Your task to perform on an android device: open app "Venmo" Image 0: 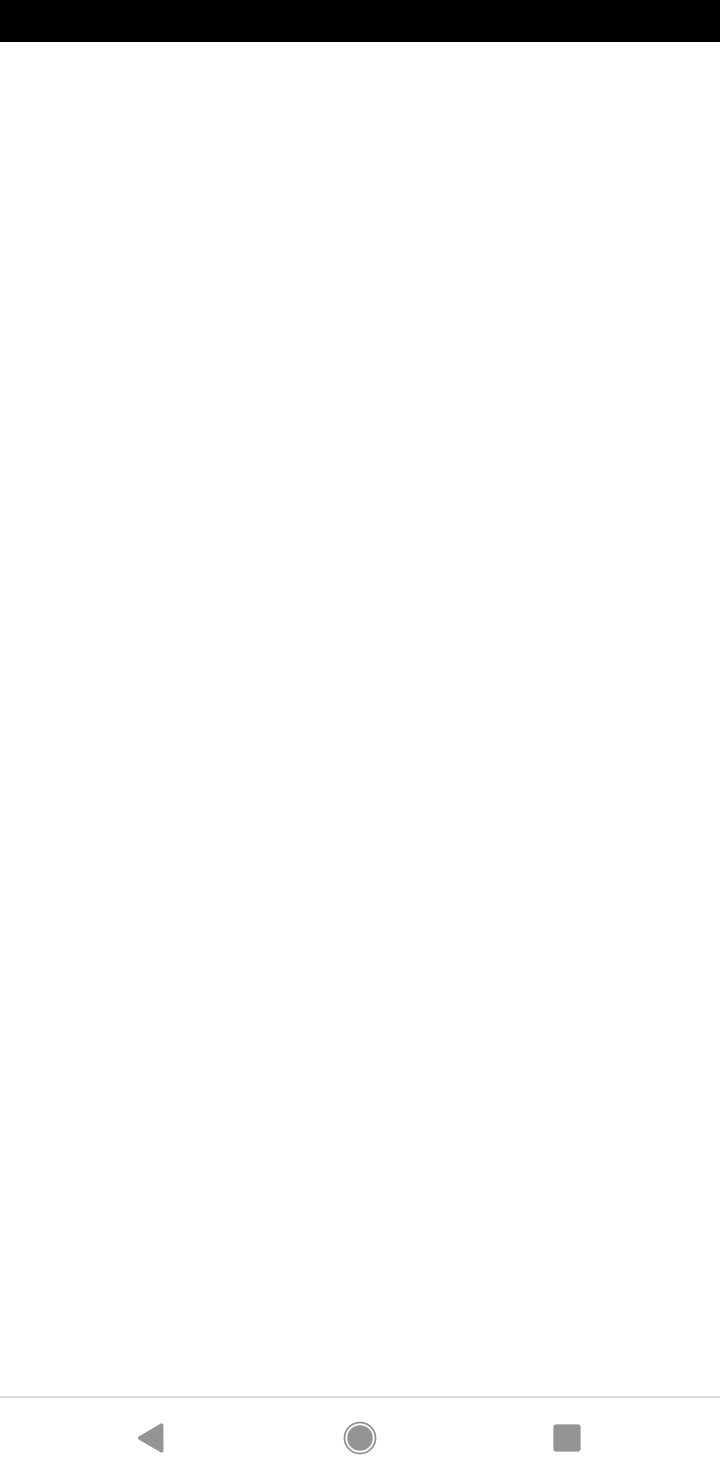
Step 0: press back button
Your task to perform on an android device: open app "Venmo" Image 1: 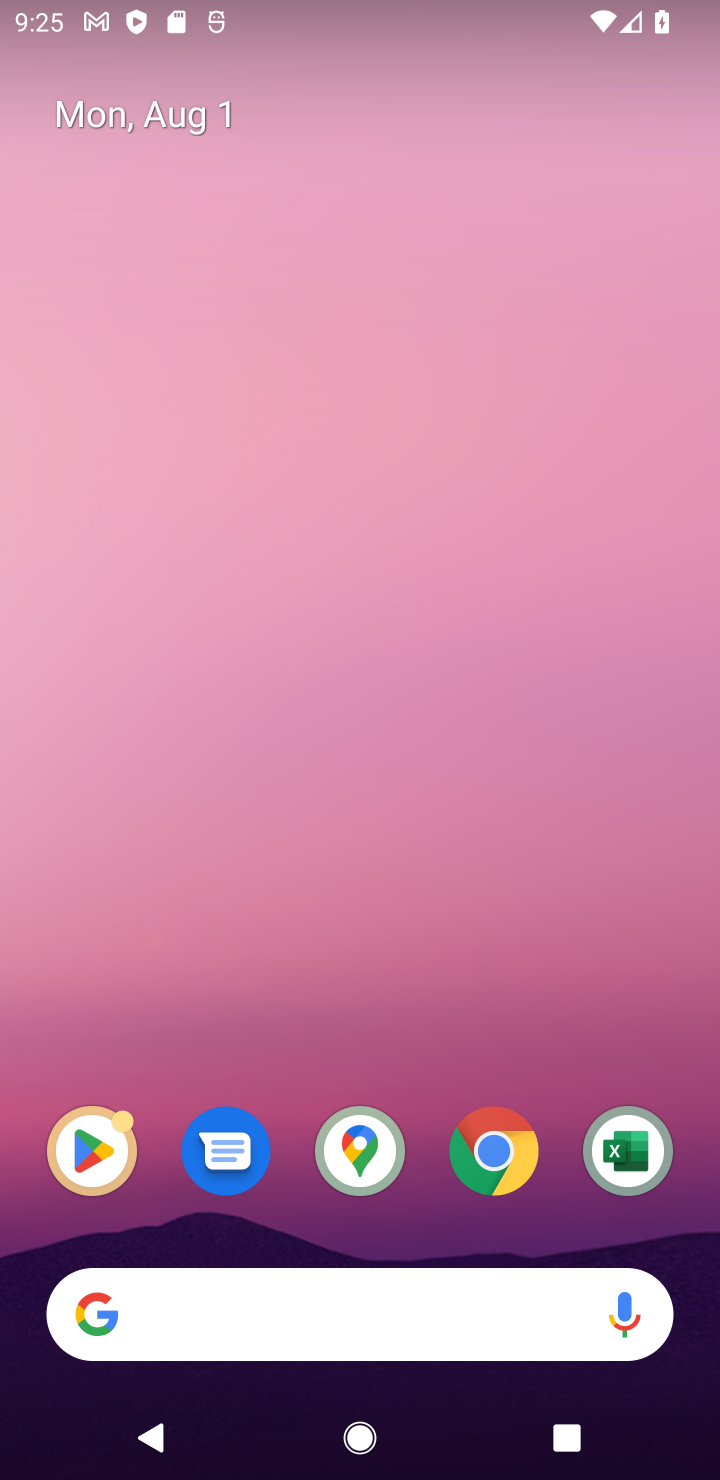
Step 1: drag from (532, 1239) to (408, 282)
Your task to perform on an android device: open app "Venmo" Image 2: 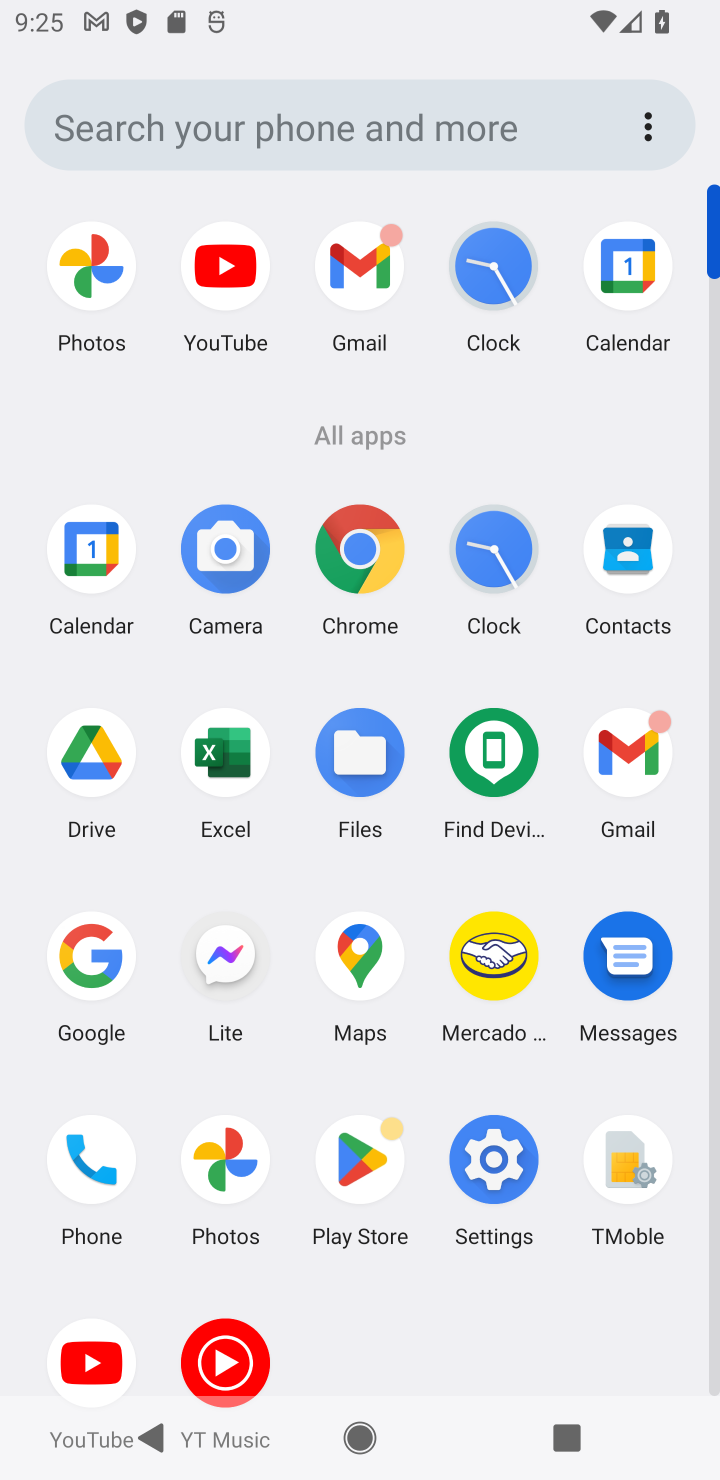
Step 2: click (362, 1157)
Your task to perform on an android device: open app "Venmo" Image 3: 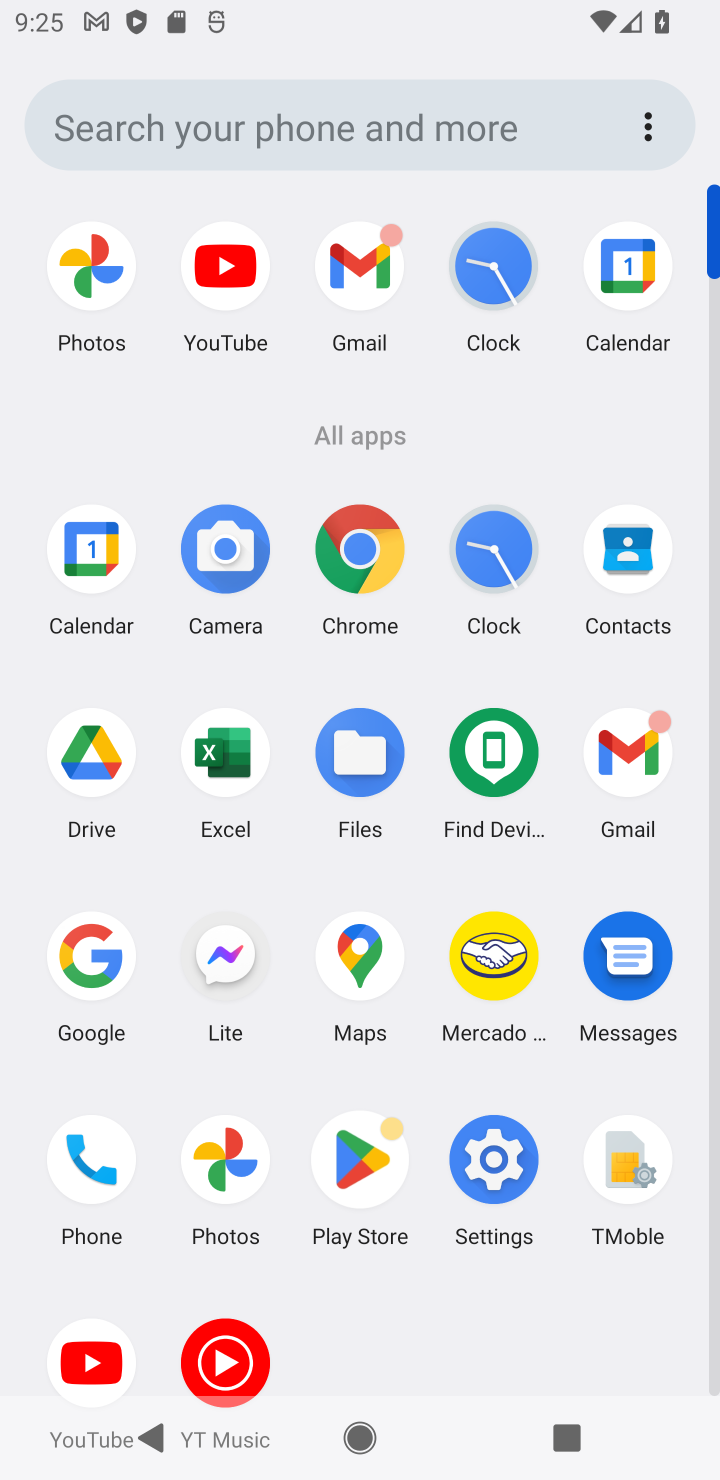
Step 3: click (373, 1141)
Your task to perform on an android device: open app "Venmo" Image 4: 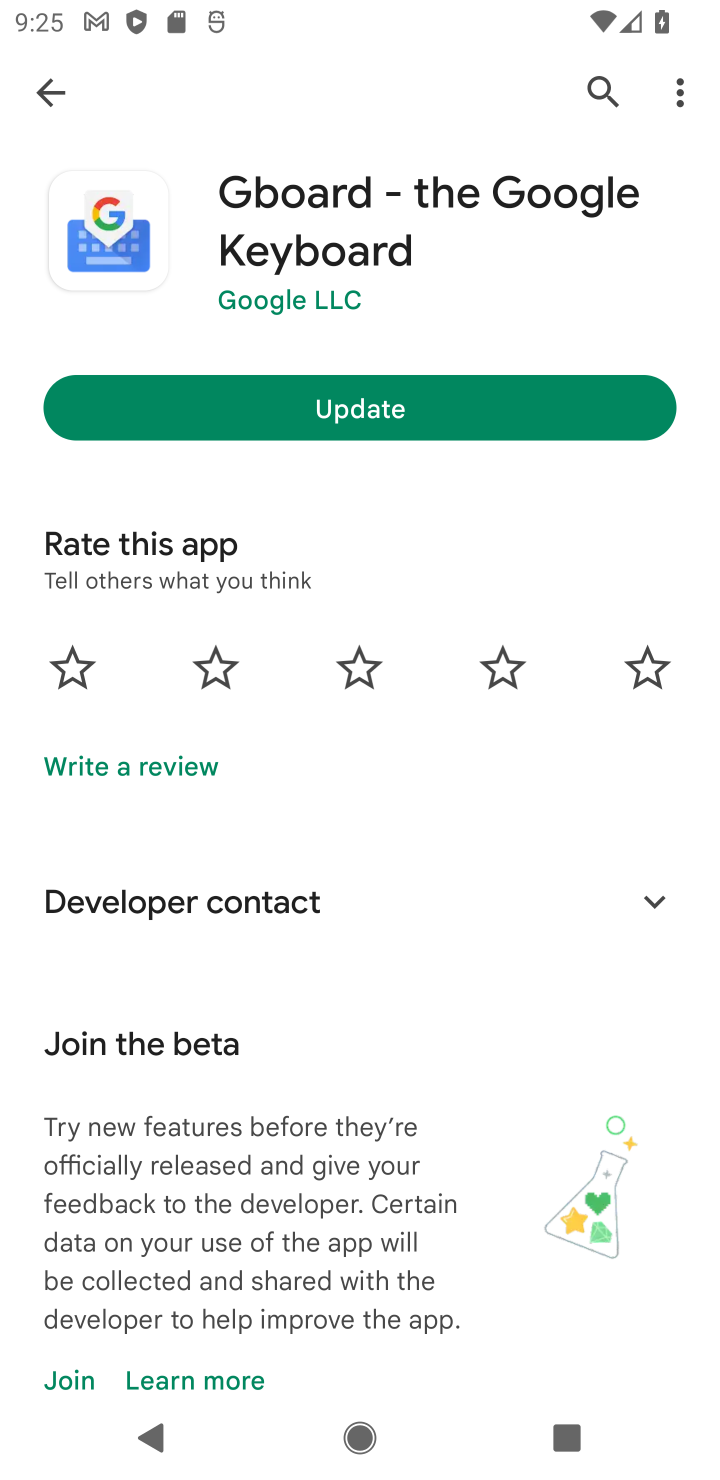
Step 4: click (375, 1141)
Your task to perform on an android device: open app "Venmo" Image 5: 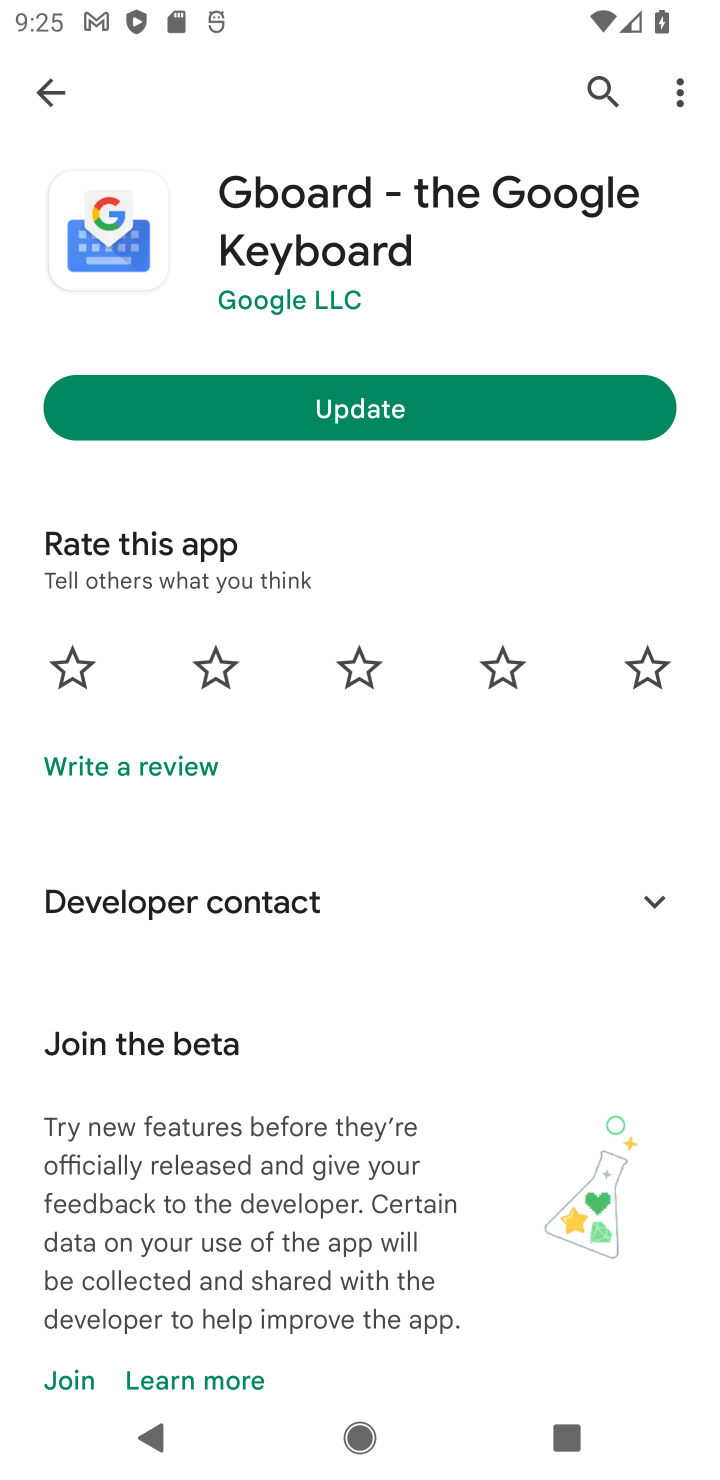
Step 5: click (381, 1136)
Your task to perform on an android device: open app "Venmo" Image 6: 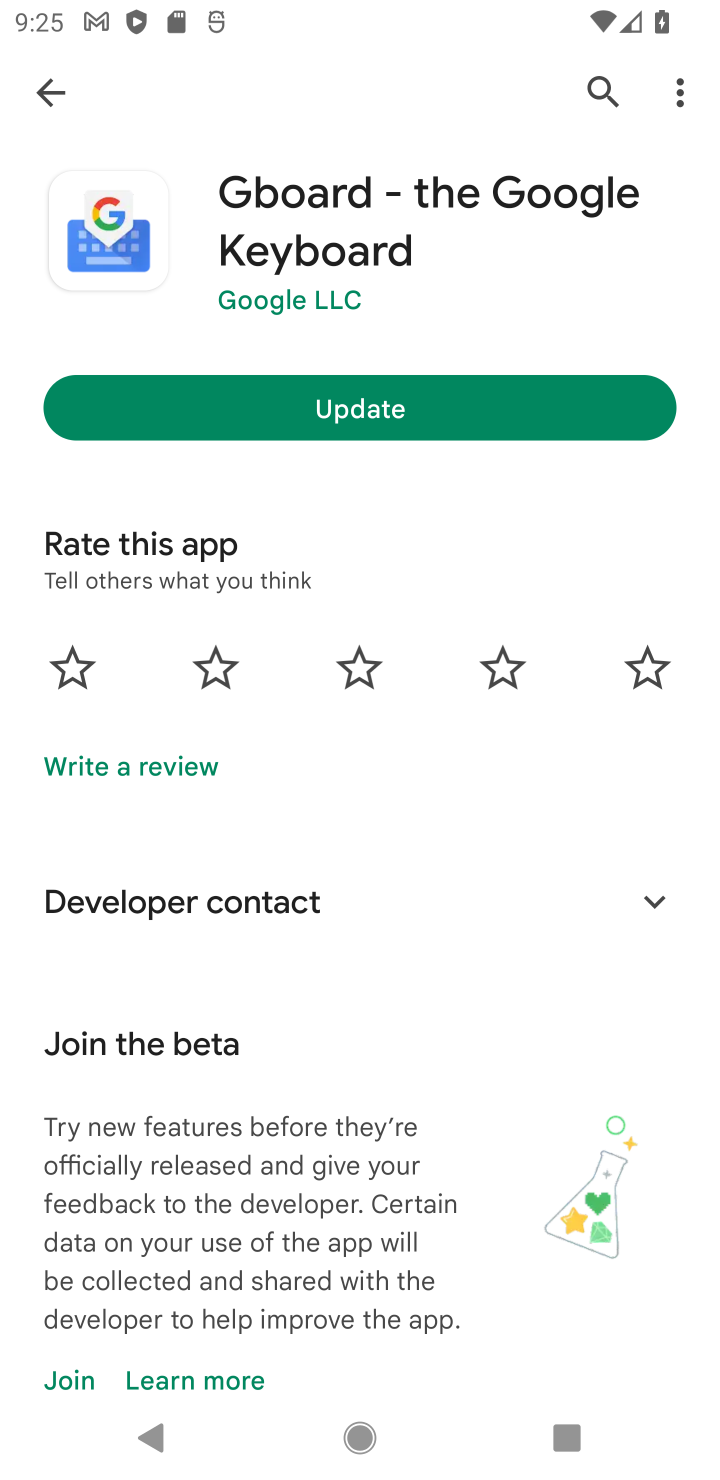
Step 6: click (40, 81)
Your task to perform on an android device: open app "Venmo" Image 7: 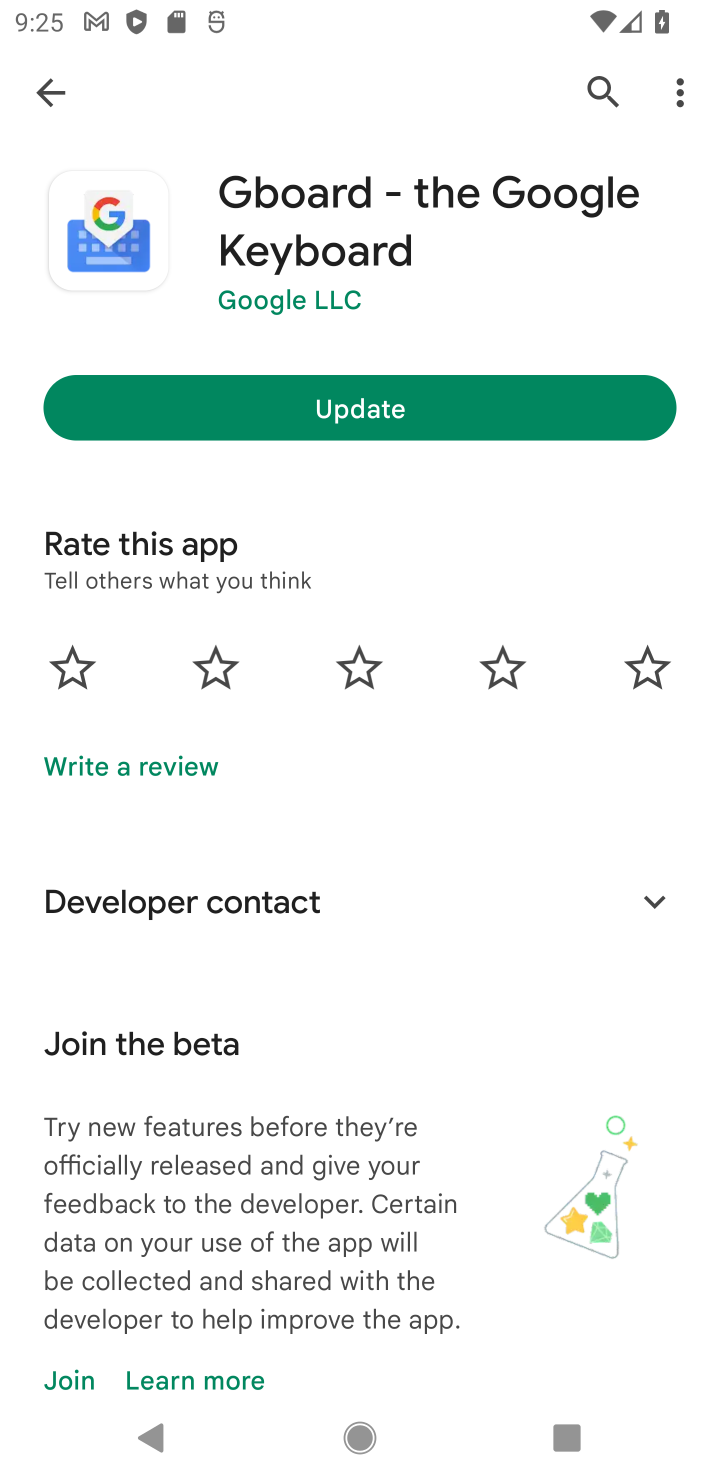
Step 7: click (50, 82)
Your task to perform on an android device: open app "Venmo" Image 8: 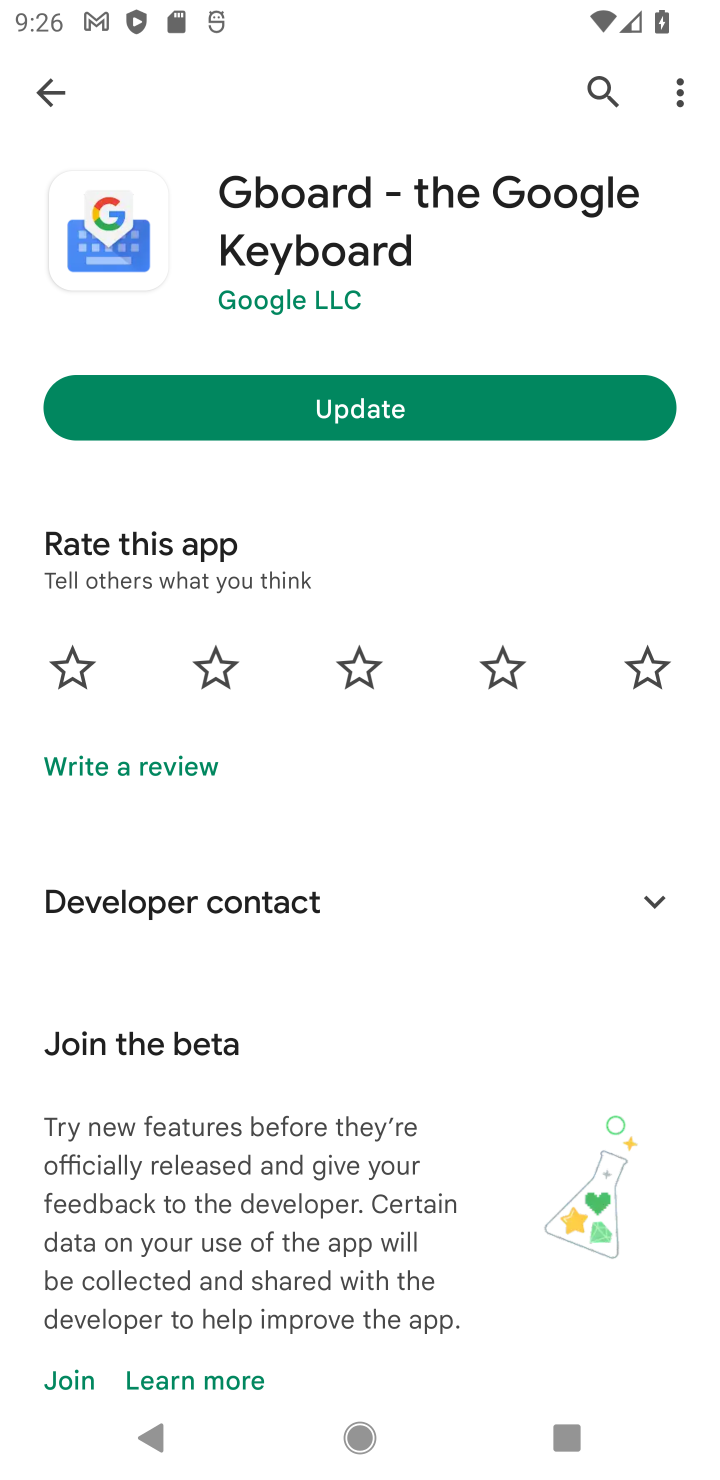
Step 8: click (86, 50)
Your task to perform on an android device: open app "Venmo" Image 9: 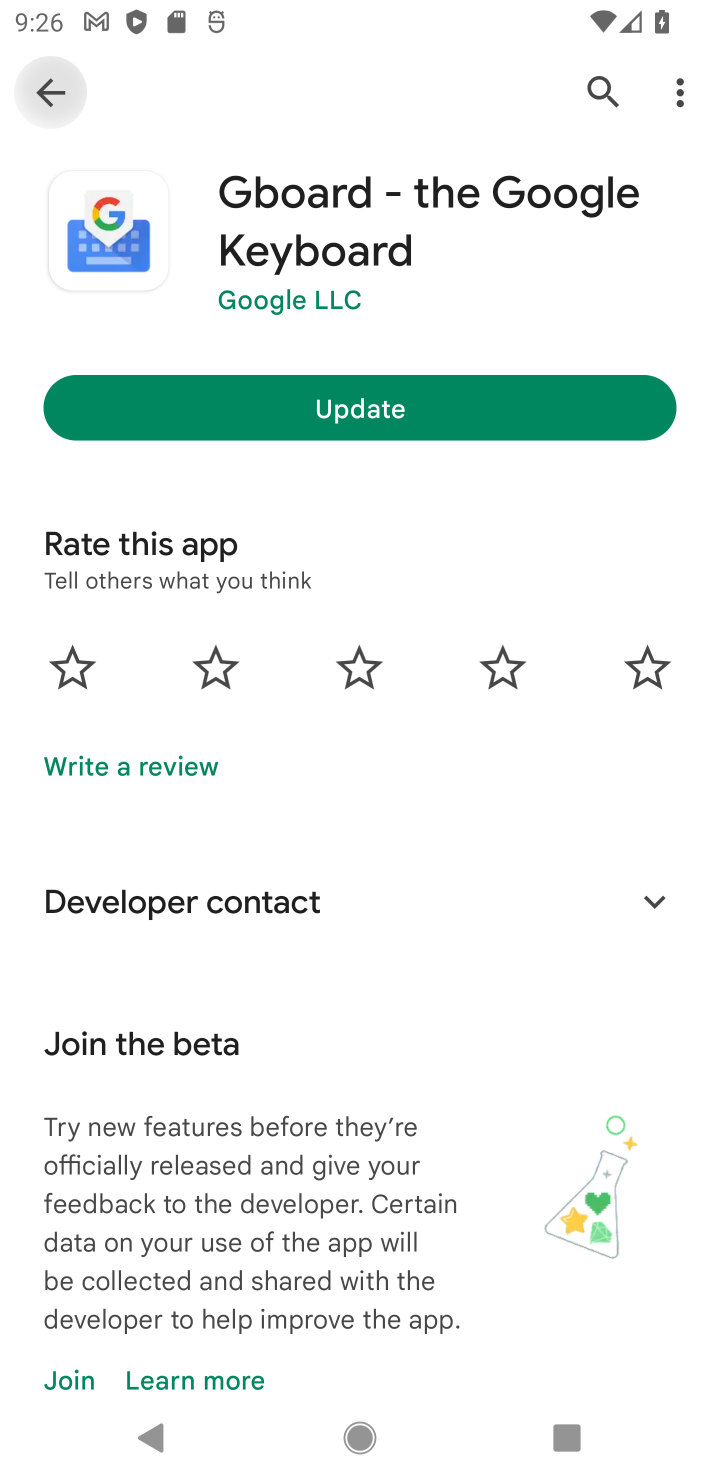
Step 9: click (56, 77)
Your task to perform on an android device: open app "Venmo" Image 10: 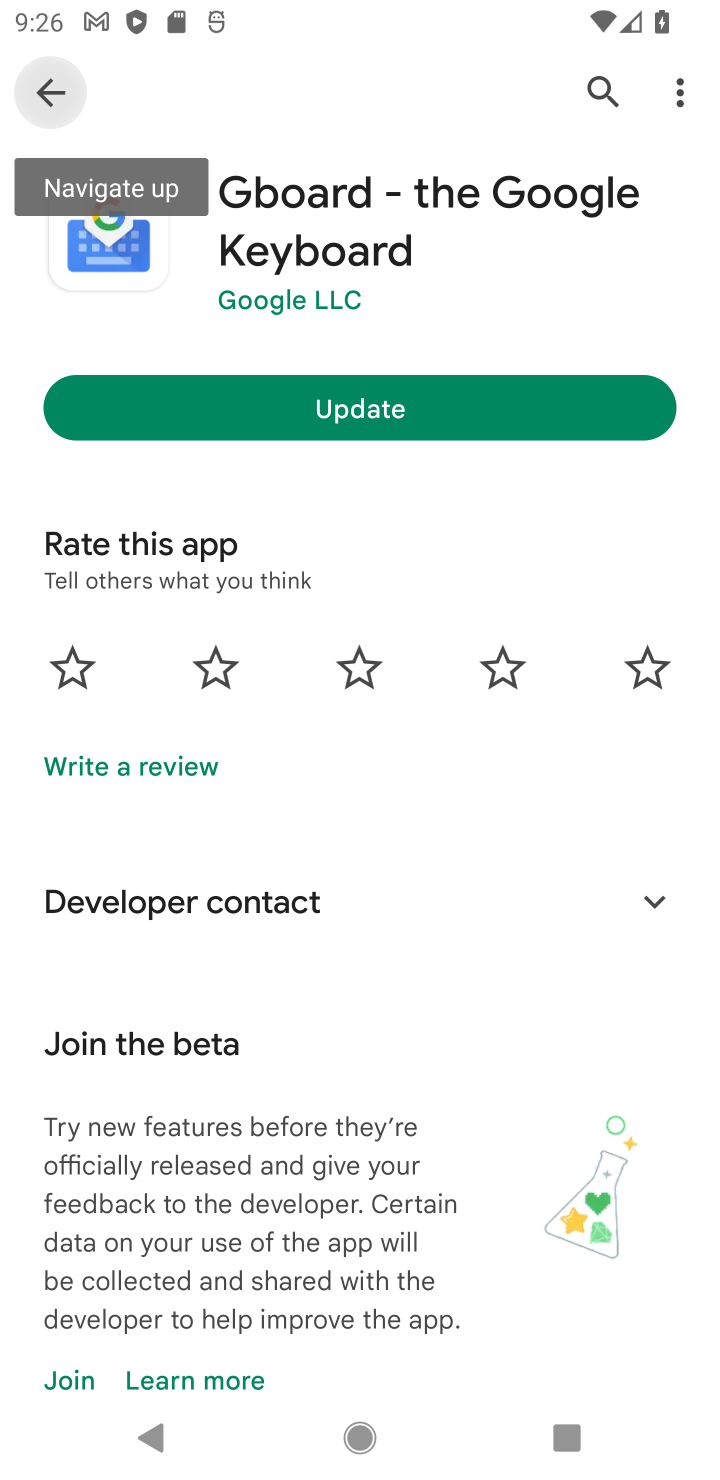
Step 10: click (79, 110)
Your task to perform on an android device: open app "Venmo" Image 11: 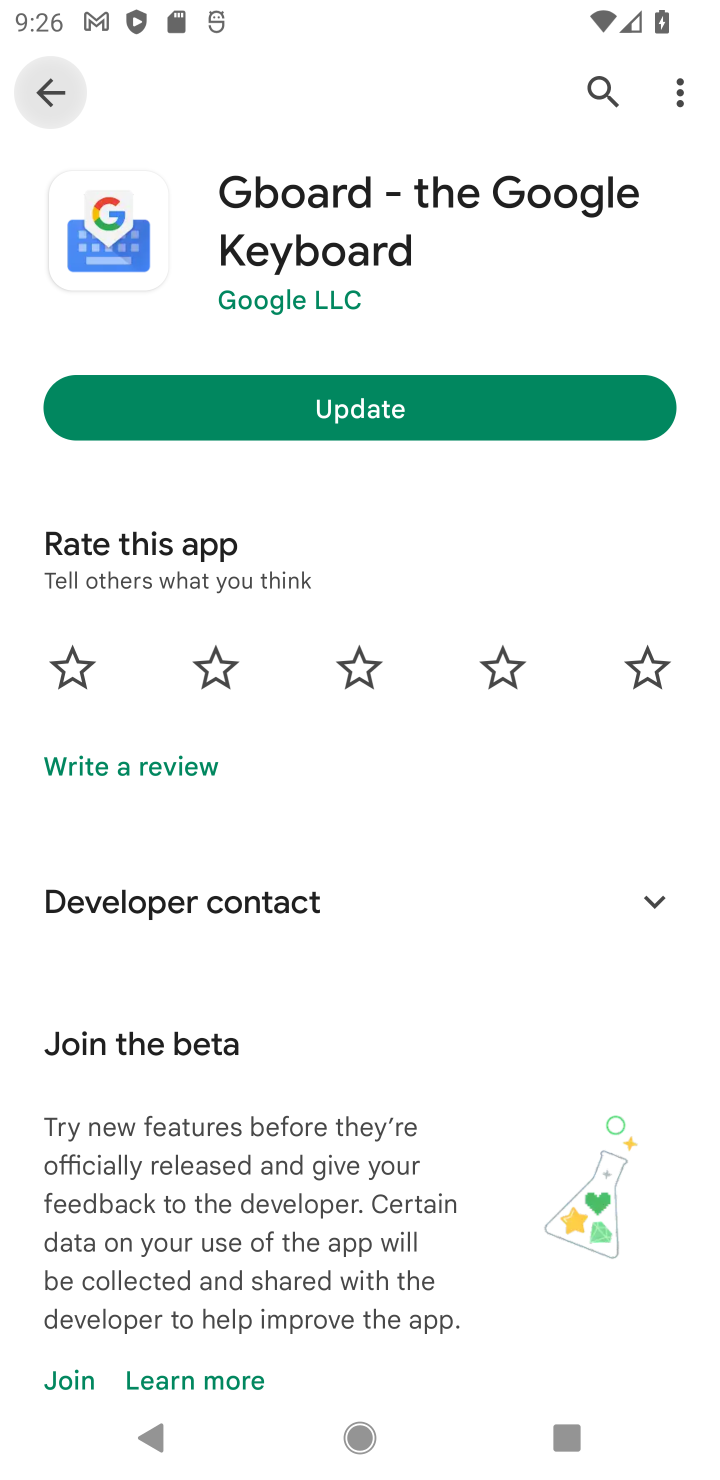
Step 11: click (79, 121)
Your task to perform on an android device: open app "Venmo" Image 12: 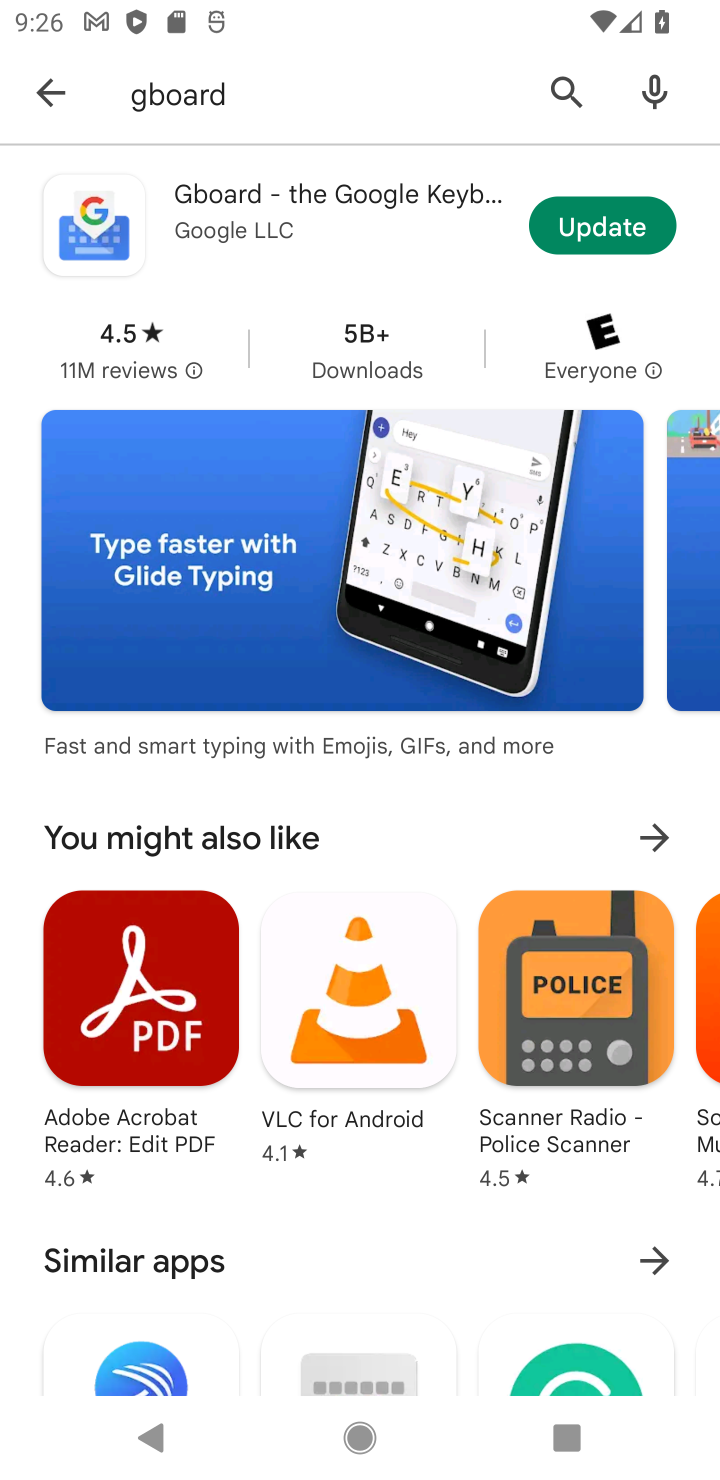
Step 12: press back button
Your task to perform on an android device: open app "Venmo" Image 13: 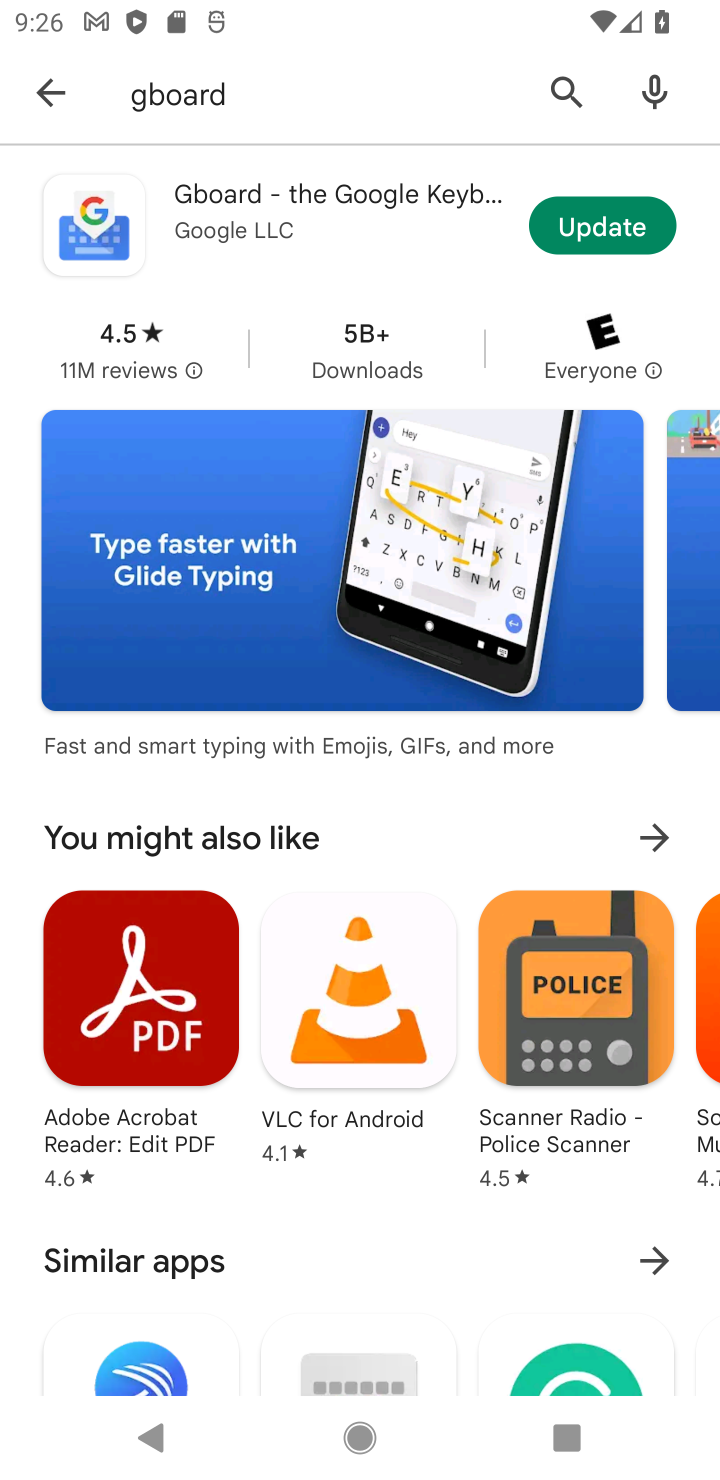
Step 13: press back button
Your task to perform on an android device: open app "Venmo" Image 14: 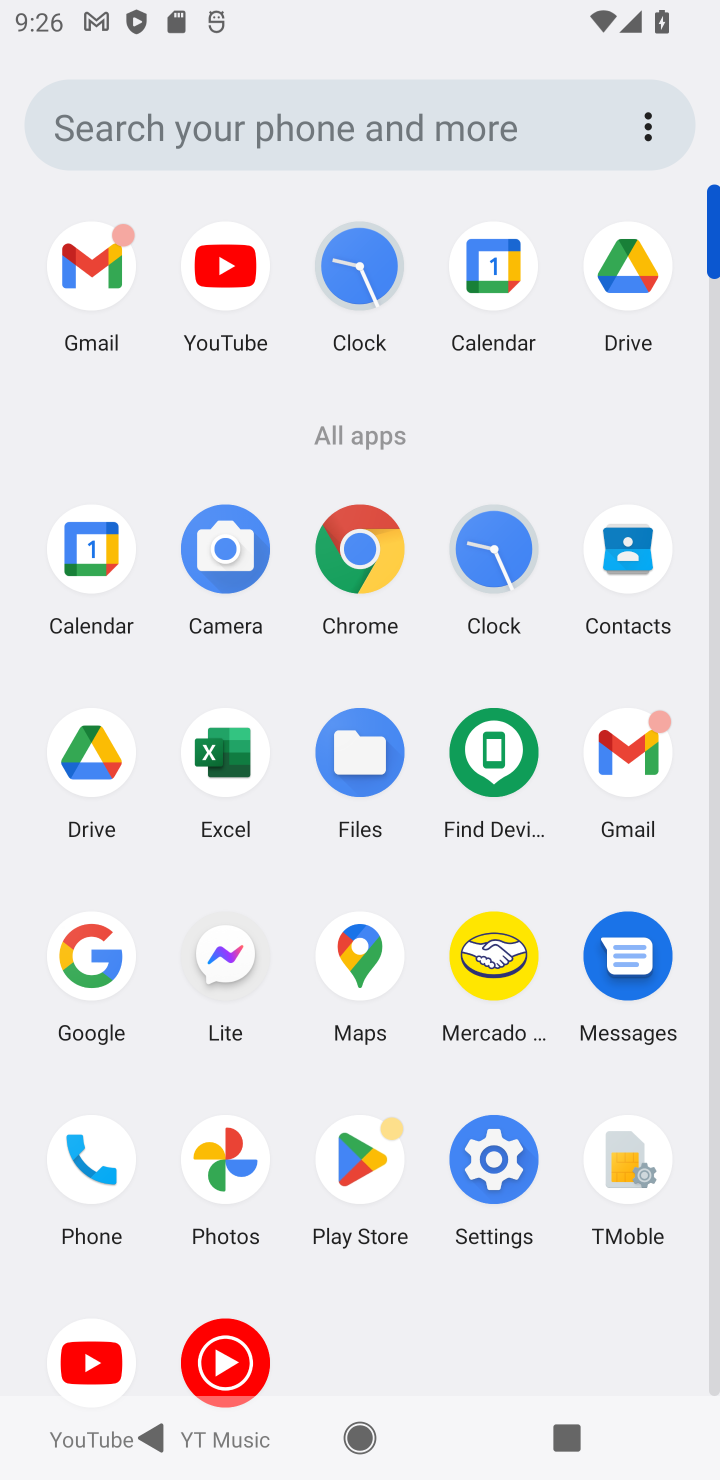
Step 14: click (366, 1123)
Your task to perform on an android device: open app "Venmo" Image 15: 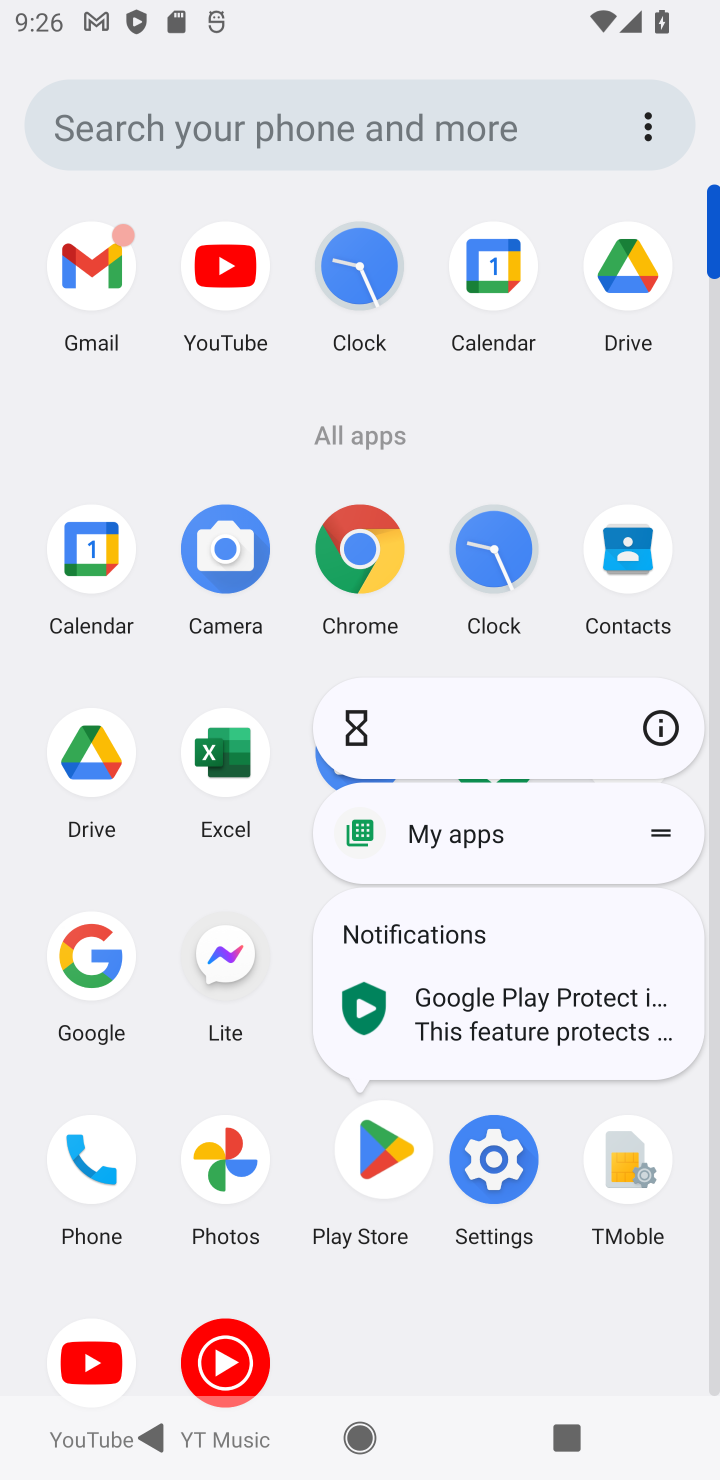
Step 15: click (392, 1113)
Your task to perform on an android device: open app "Venmo" Image 16: 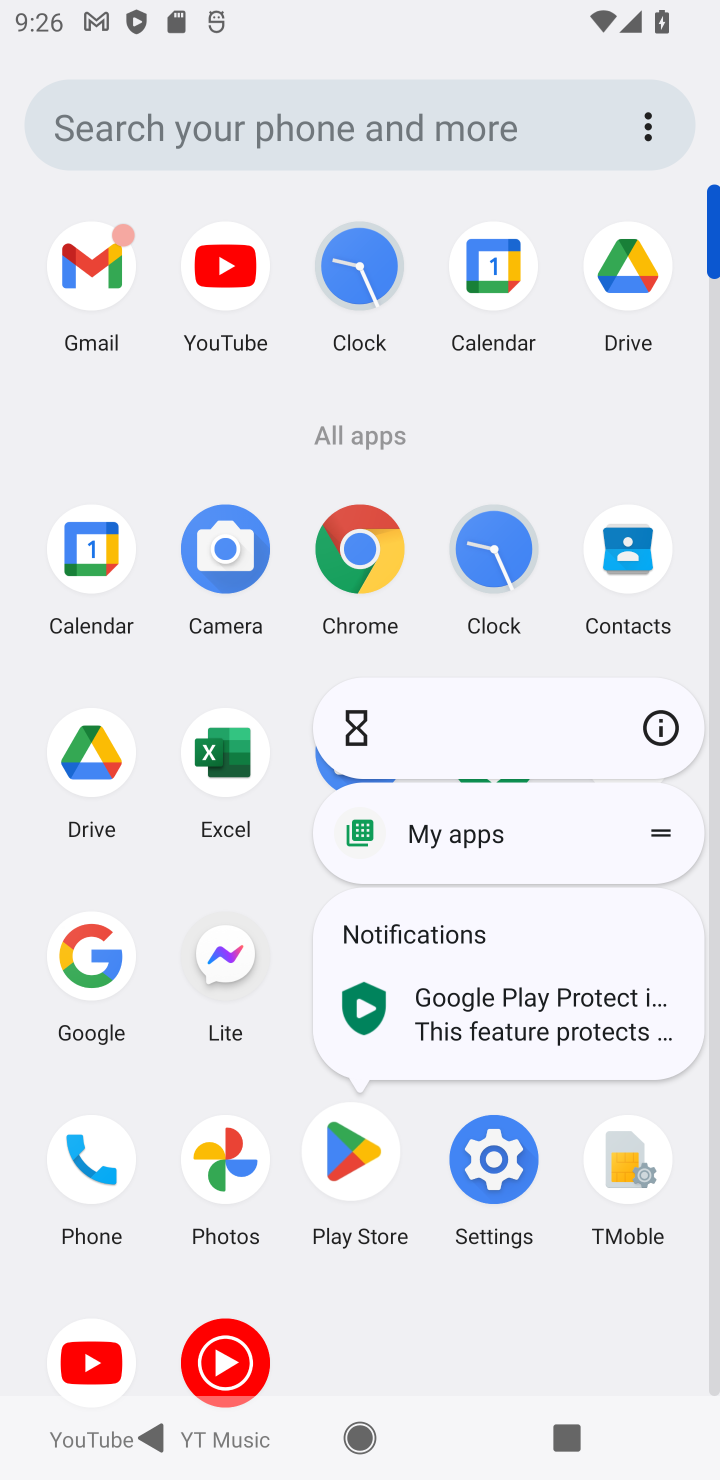
Step 16: click (301, 1152)
Your task to perform on an android device: open app "Venmo" Image 17: 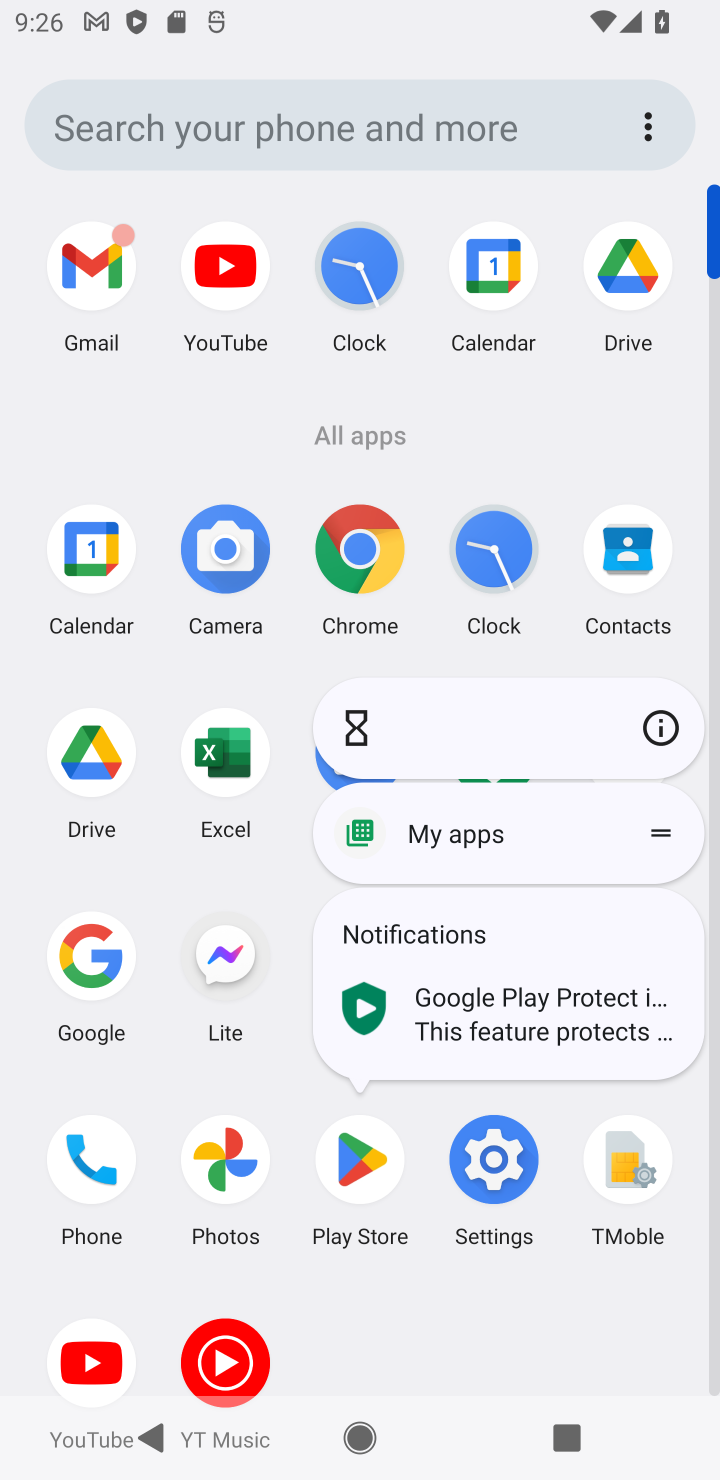
Step 17: click (342, 1150)
Your task to perform on an android device: open app "Venmo" Image 18: 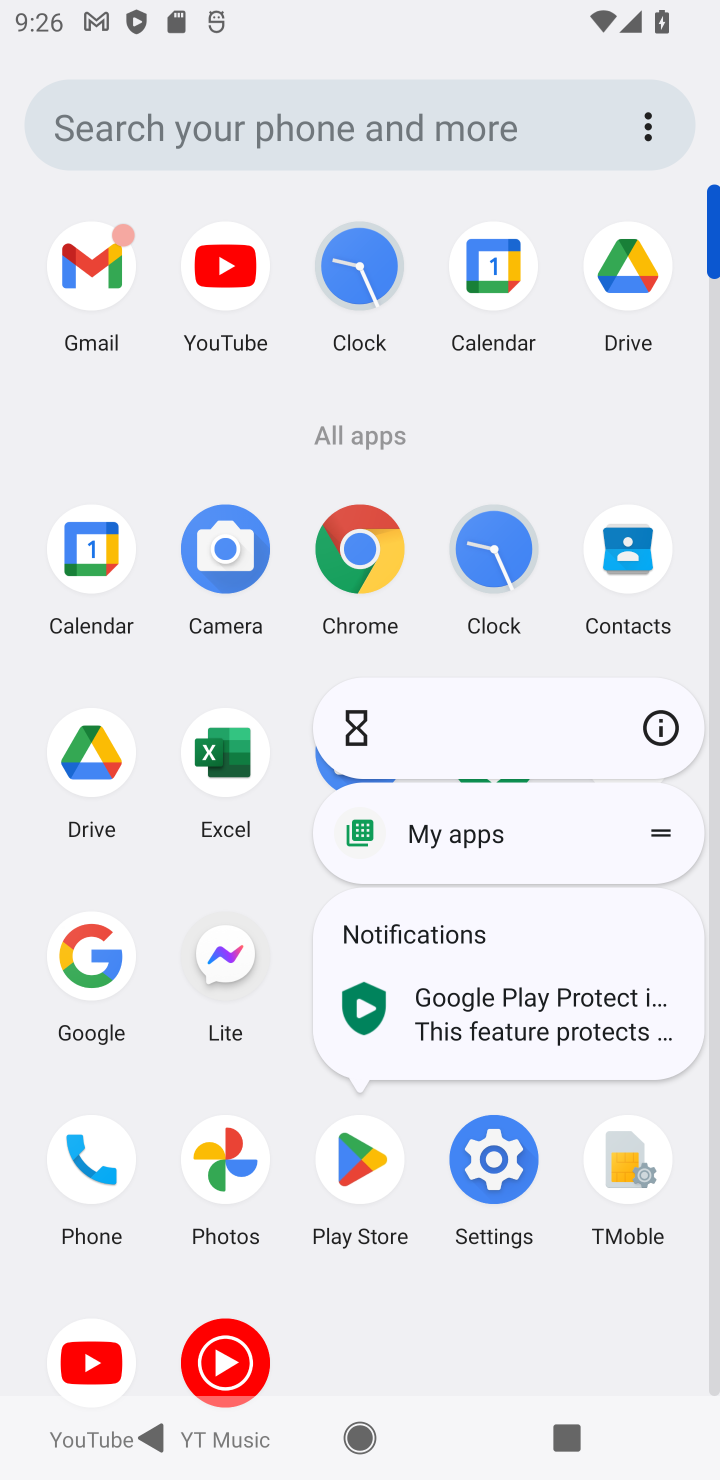
Step 18: click (375, 1164)
Your task to perform on an android device: open app "Venmo" Image 19: 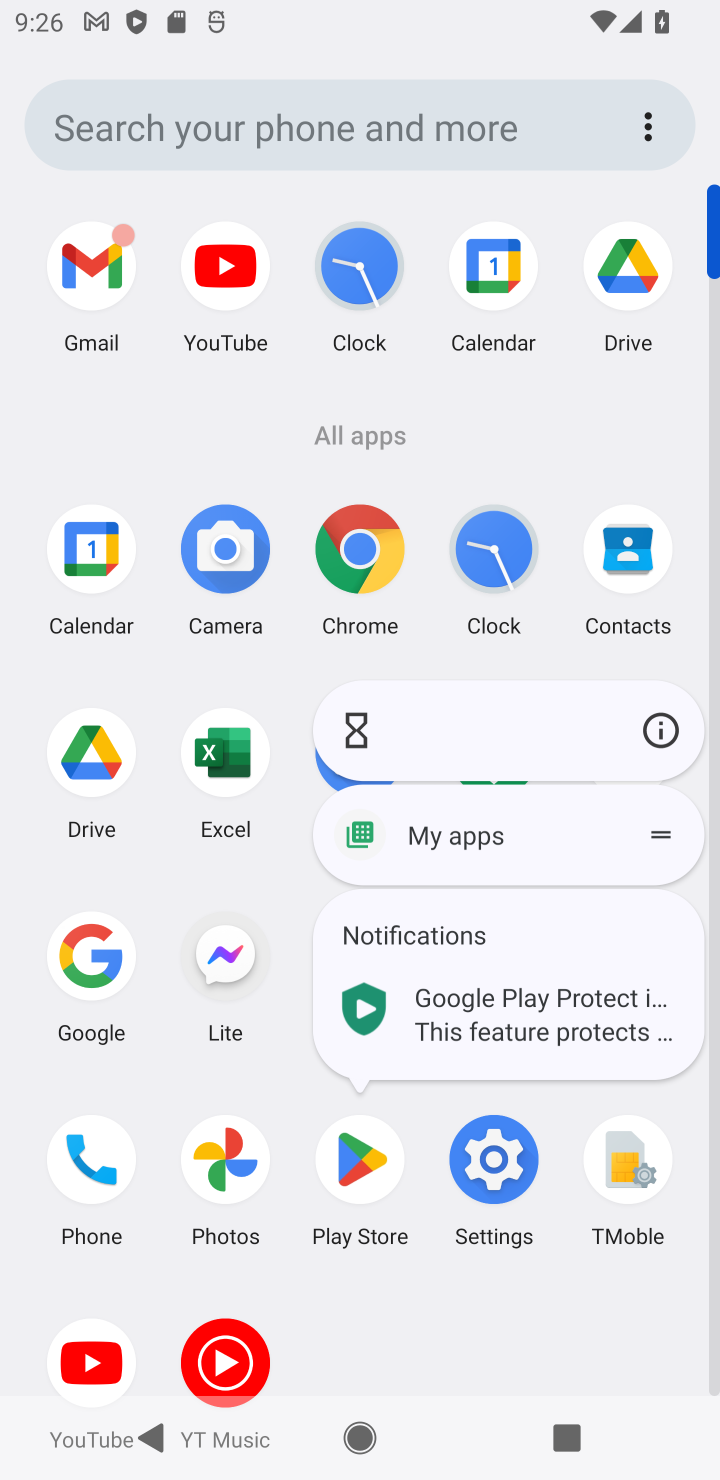
Step 19: click (362, 1177)
Your task to perform on an android device: open app "Venmo" Image 20: 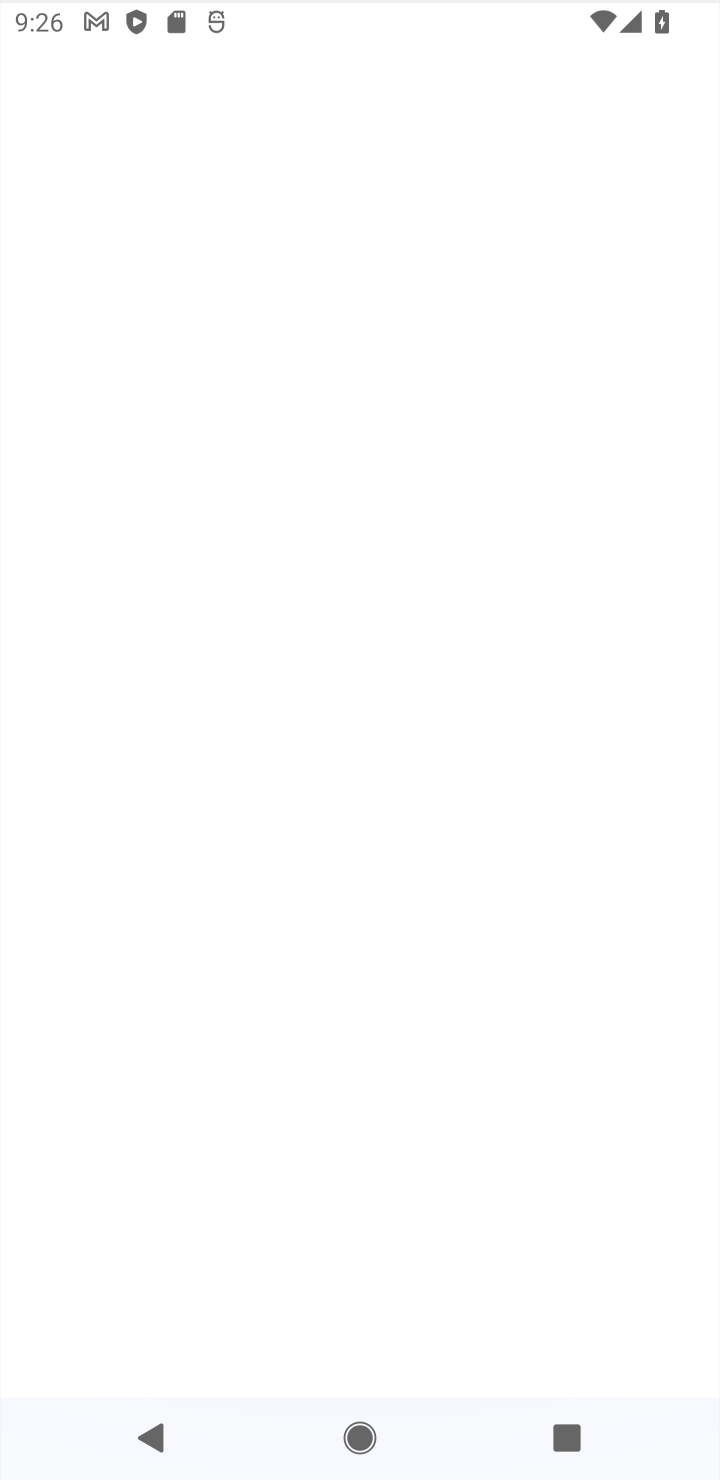
Step 20: click (362, 1128)
Your task to perform on an android device: open app "Venmo" Image 21: 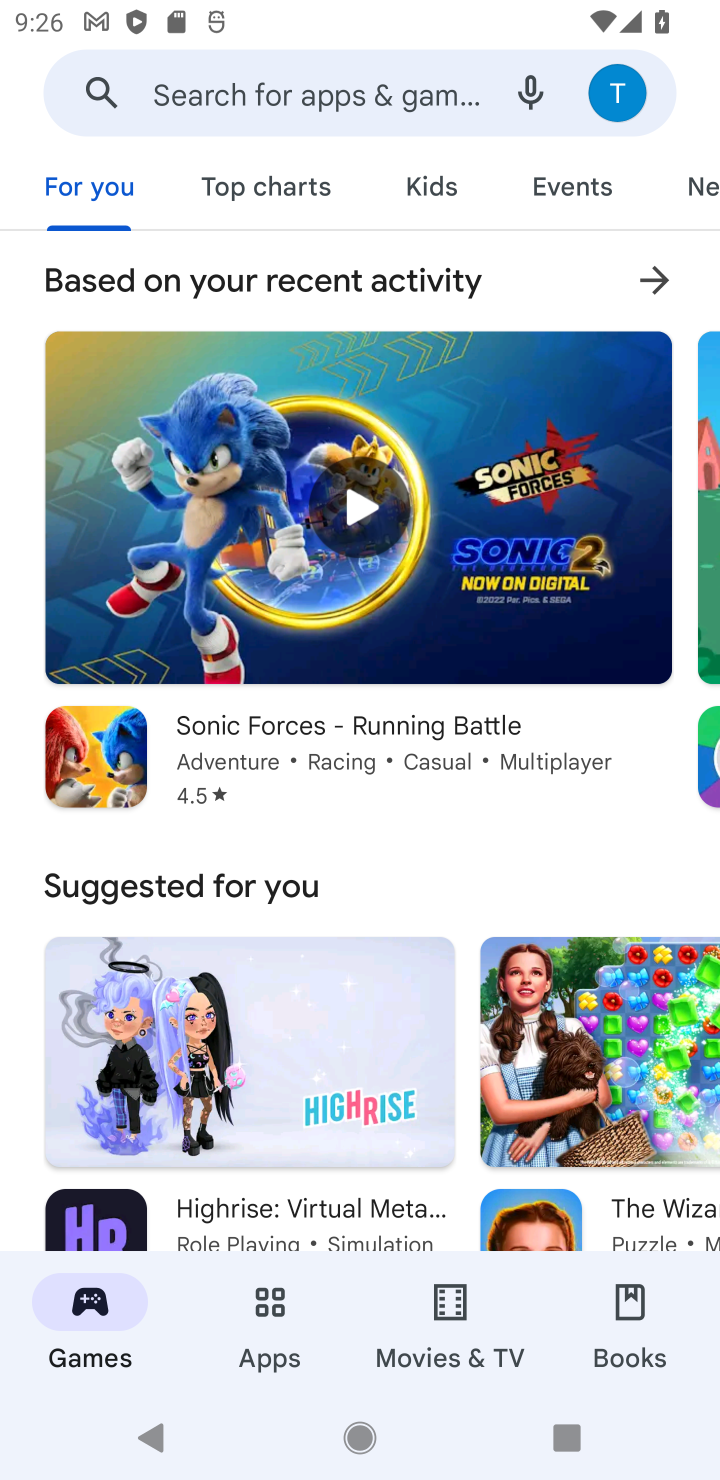
Step 21: click (195, 60)
Your task to perform on an android device: open app "Venmo" Image 22: 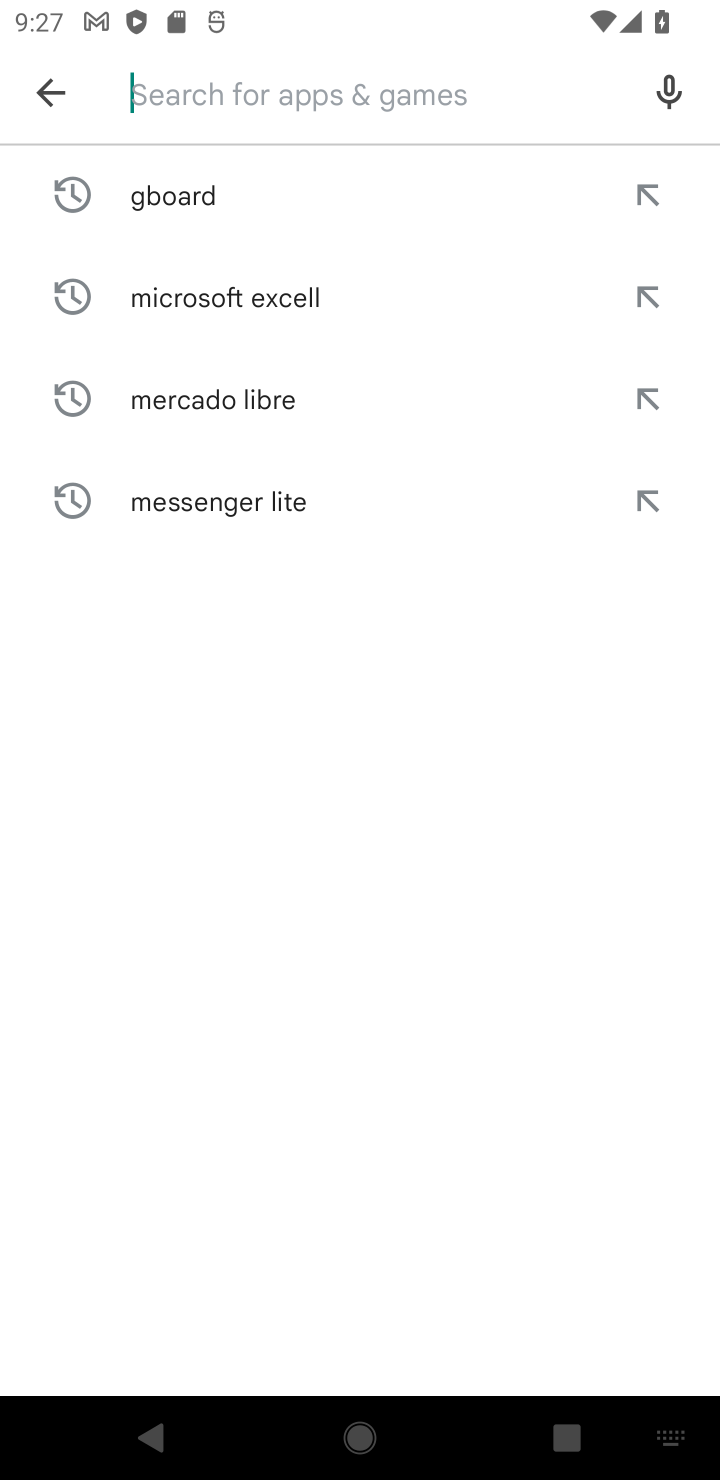
Step 22: type "venmo"
Your task to perform on an android device: open app "Venmo" Image 23: 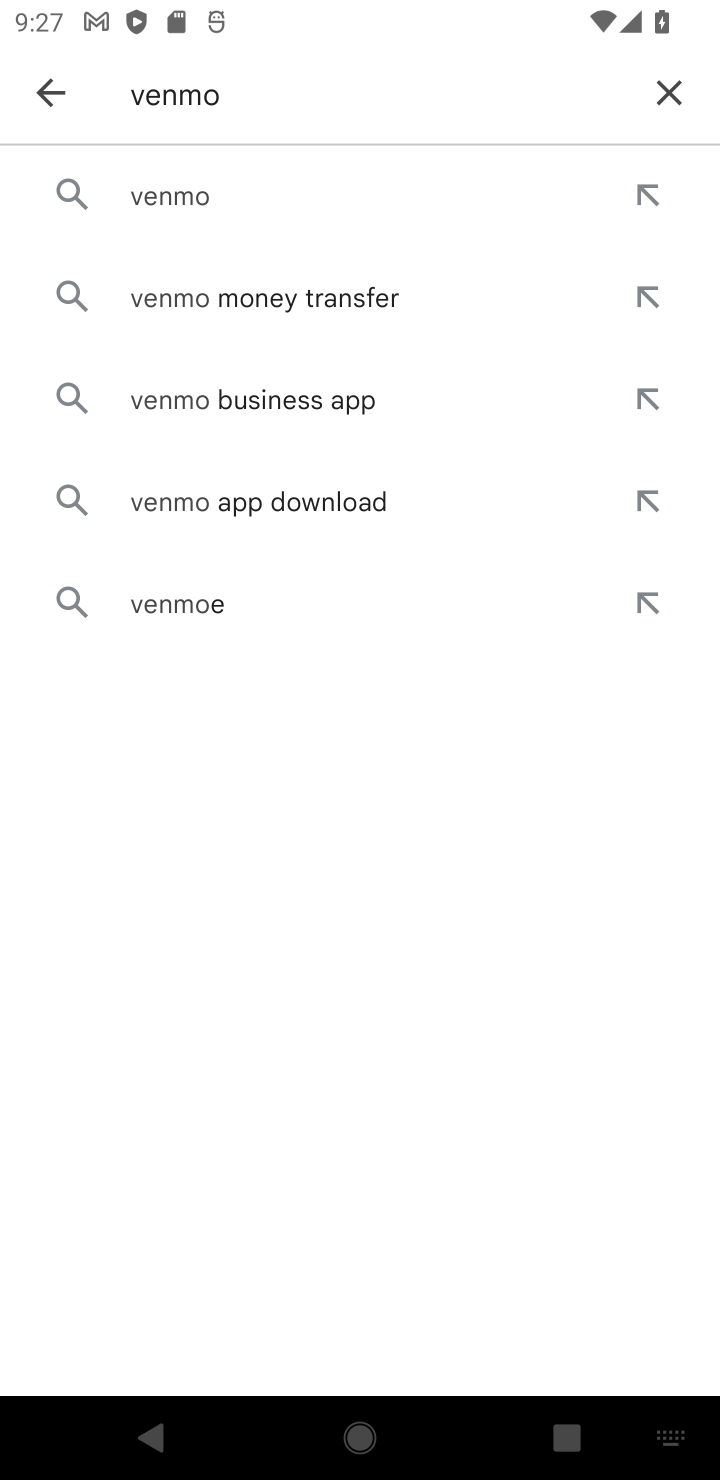
Step 23: click (186, 211)
Your task to perform on an android device: open app "Venmo" Image 24: 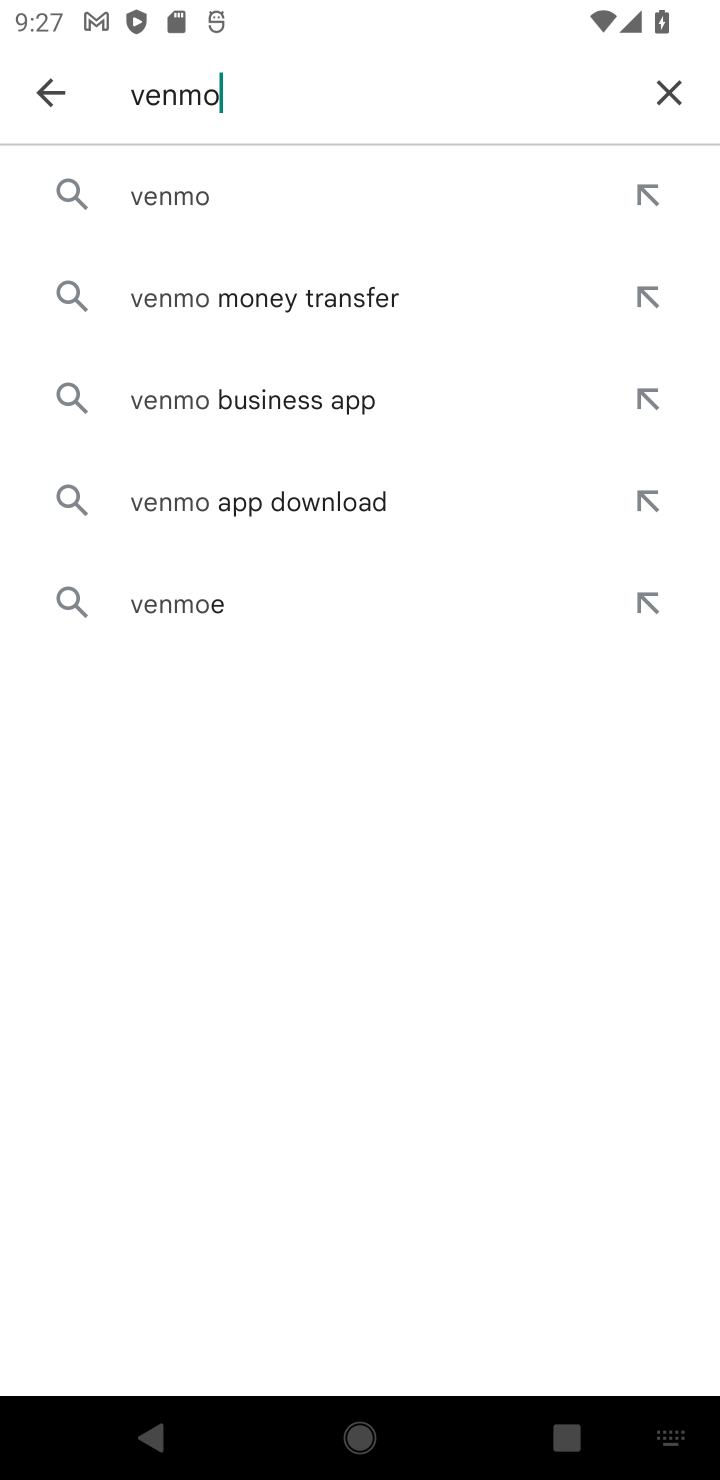
Step 24: click (186, 206)
Your task to perform on an android device: open app "Venmo" Image 25: 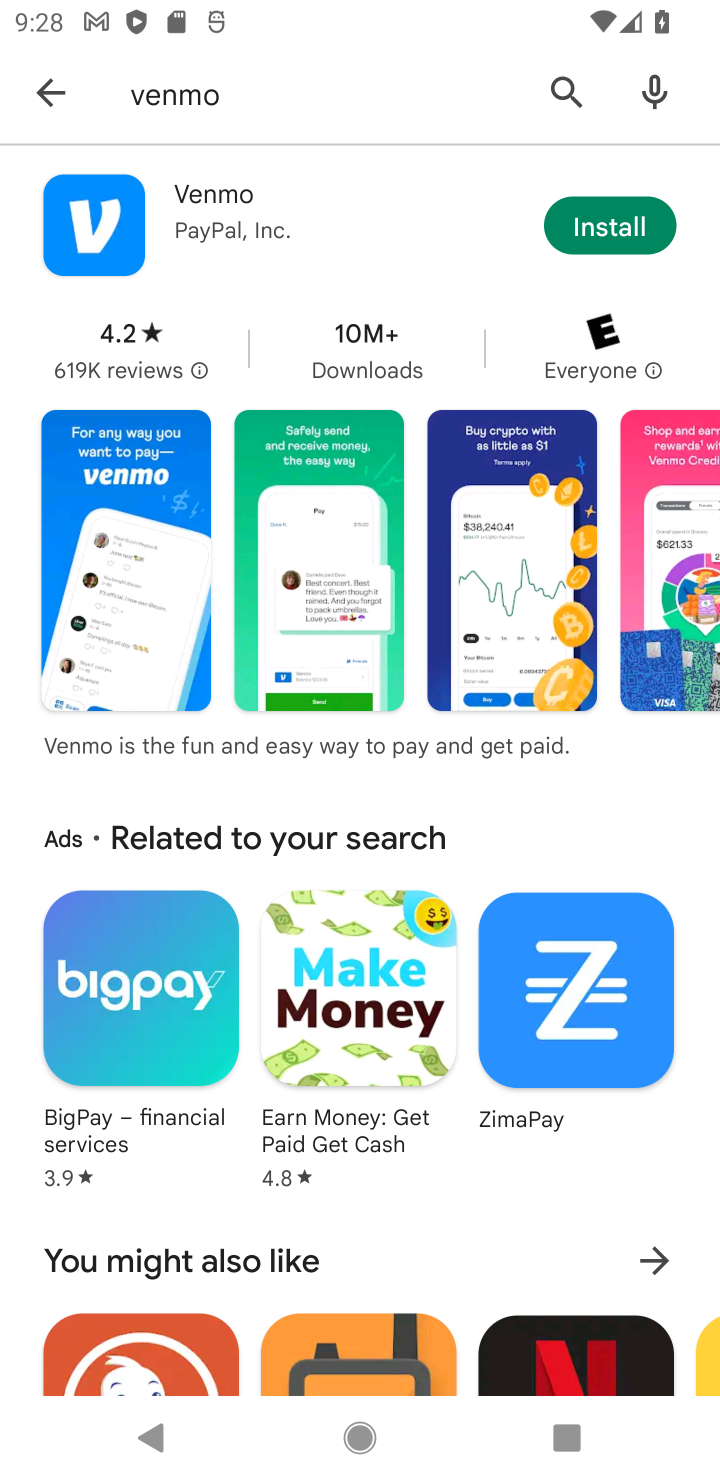
Step 25: click (643, 196)
Your task to perform on an android device: open app "Venmo" Image 26: 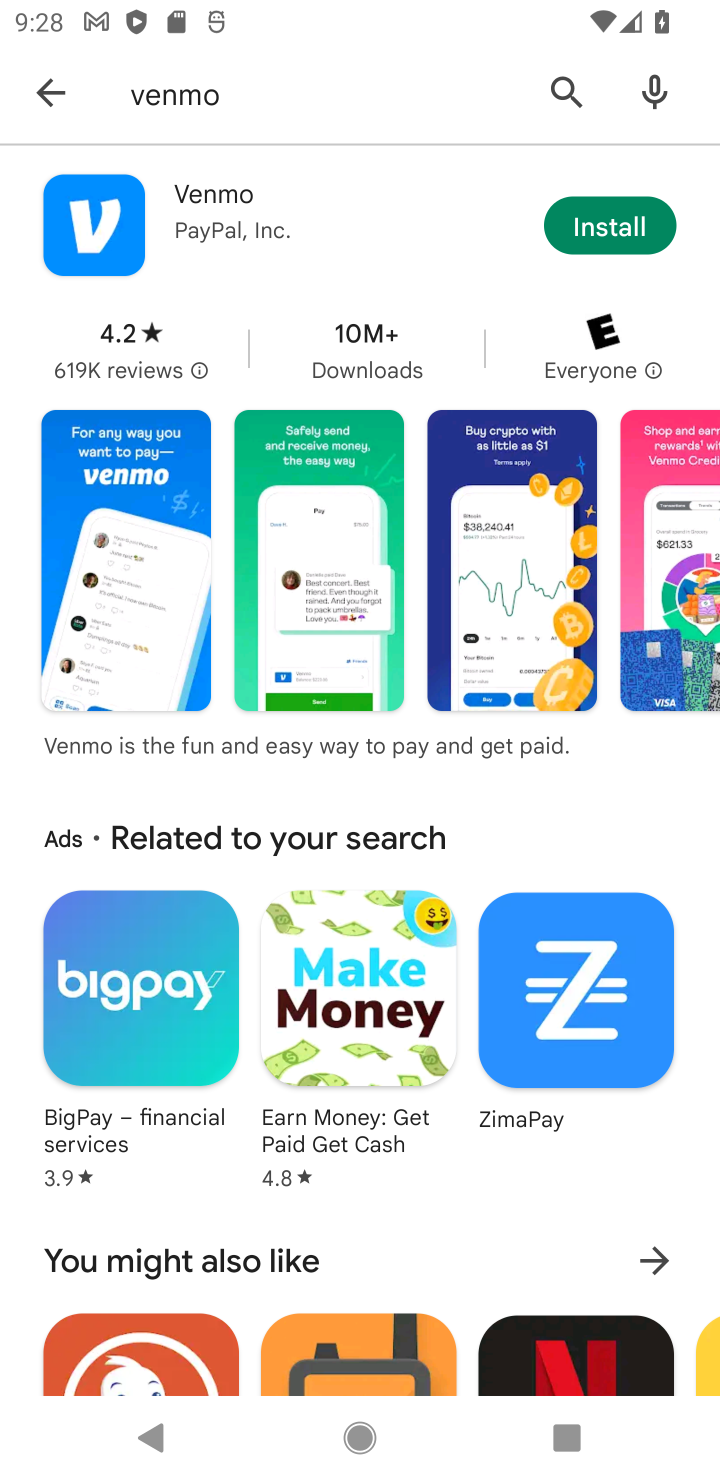
Step 26: click (634, 216)
Your task to perform on an android device: open app "Venmo" Image 27: 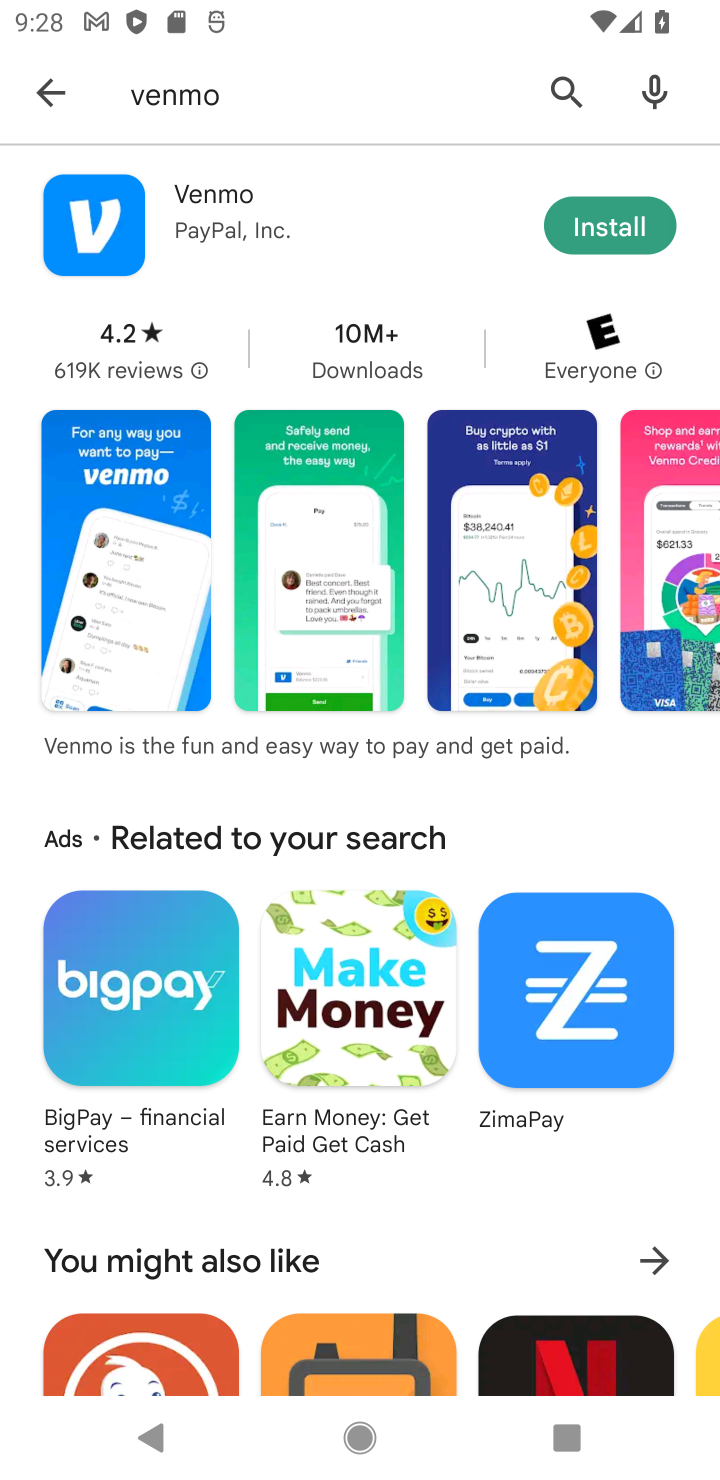
Step 27: click (616, 236)
Your task to perform on an android device: open app "Venmo" Image 28: 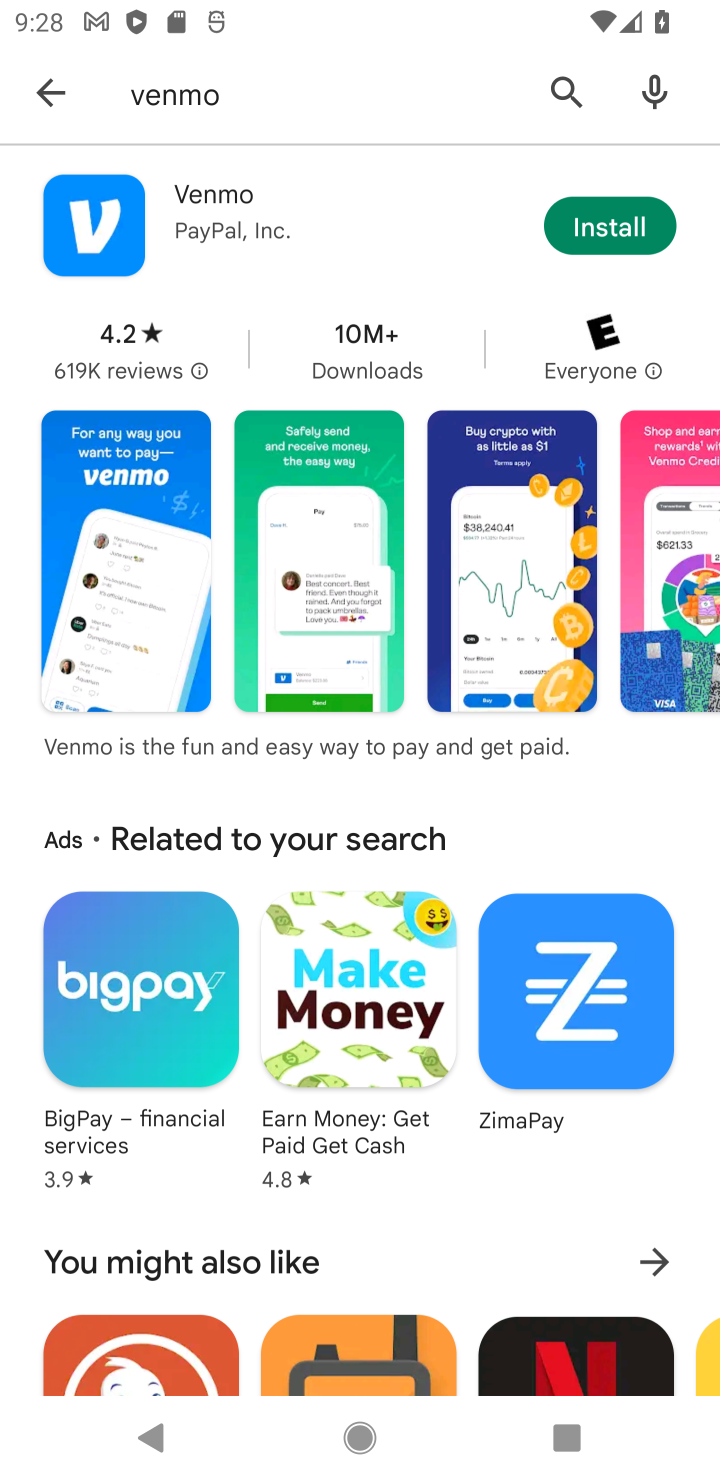
Step 28: click (618, 225)
Your task to perform on an android device: open app "Venmo" Image 29: 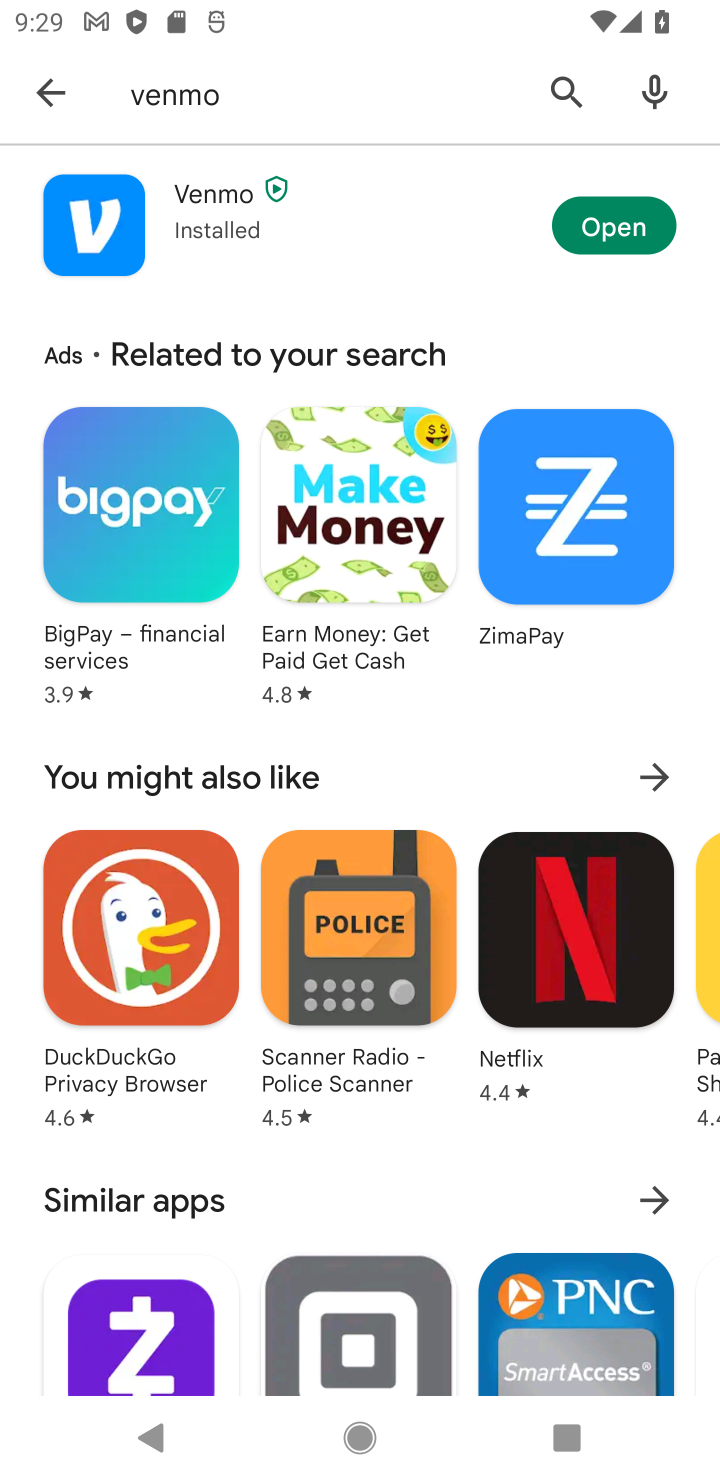
Step 29: click (633, 197)
Your task to perform on an android device: open app "Venmo" Image 30: 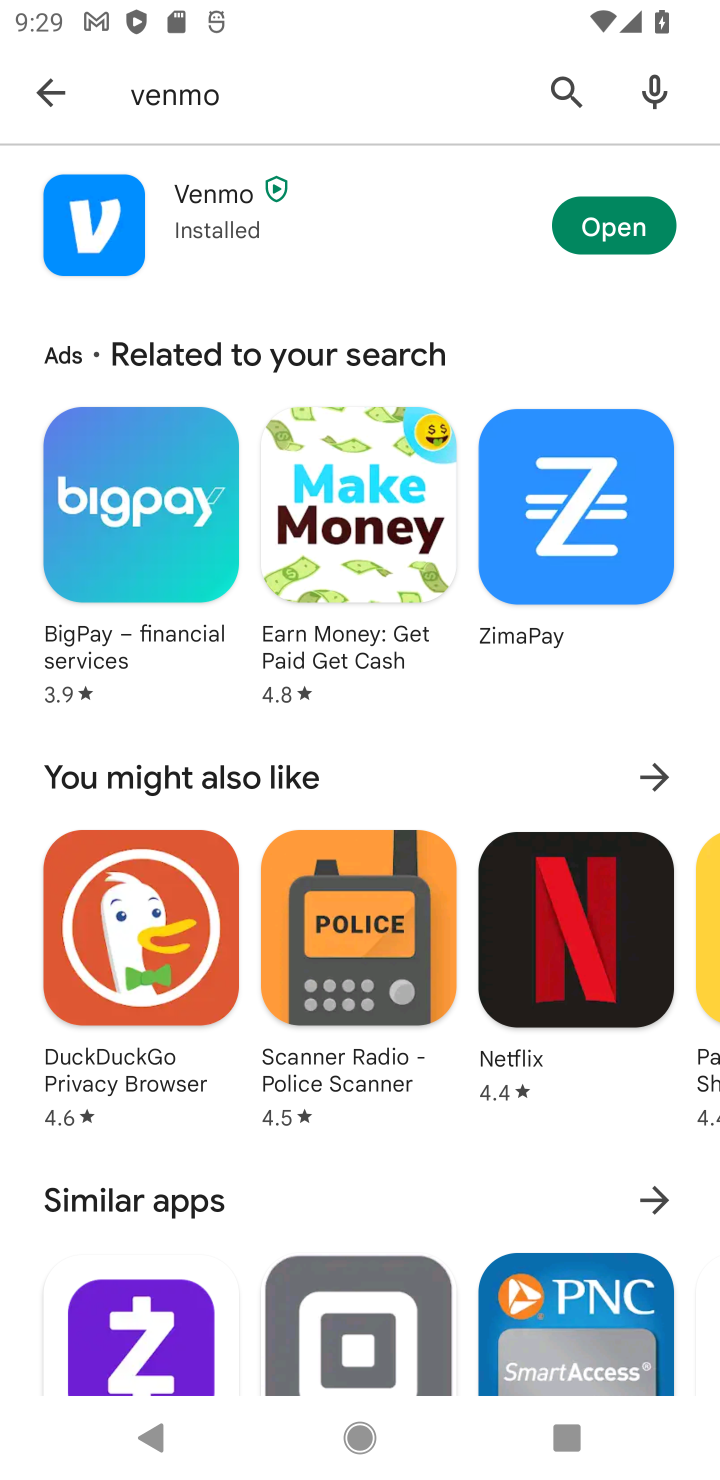
Step 30: click (629, 231)
Your task to perform on an android device: open app "Venmo" Image 31: 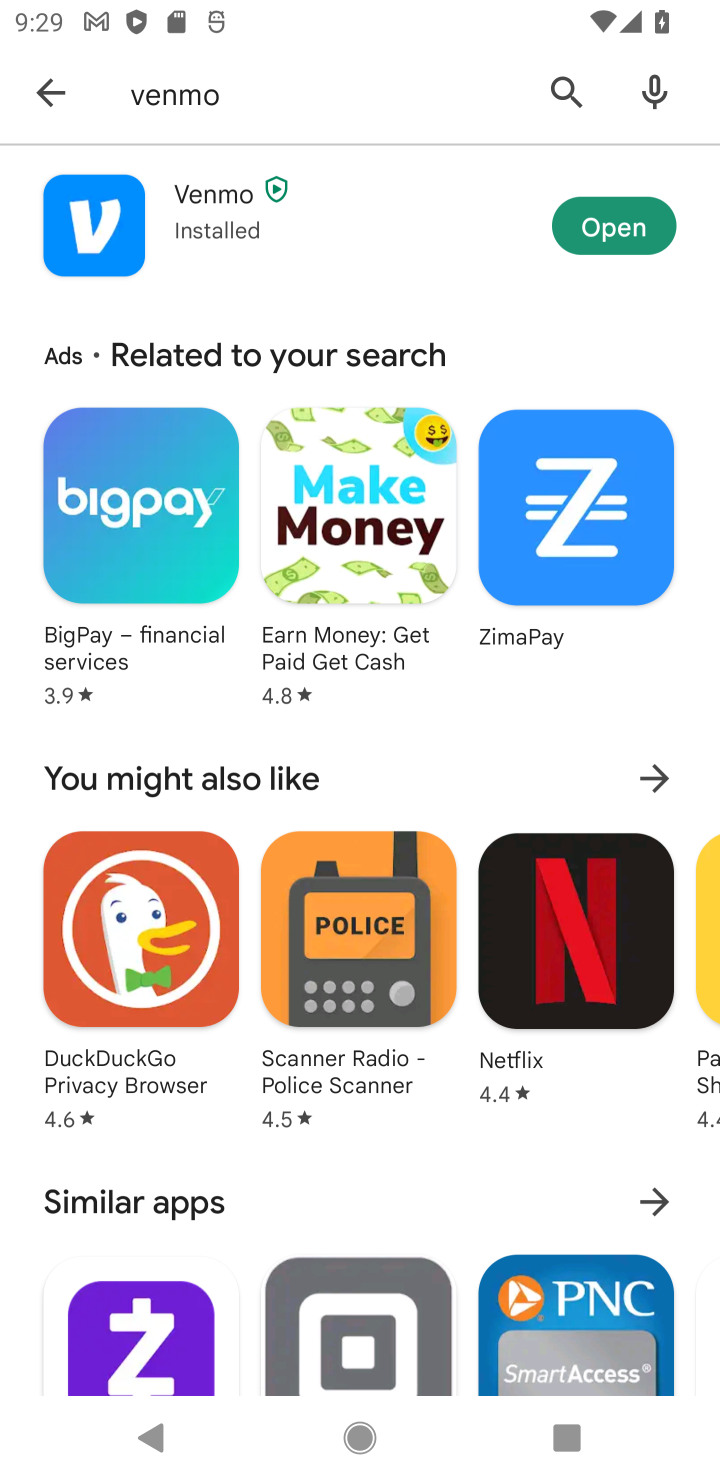
Step 31: click (627, 223)
Your task to perform on an android device: open app "Venmo" Image 32: 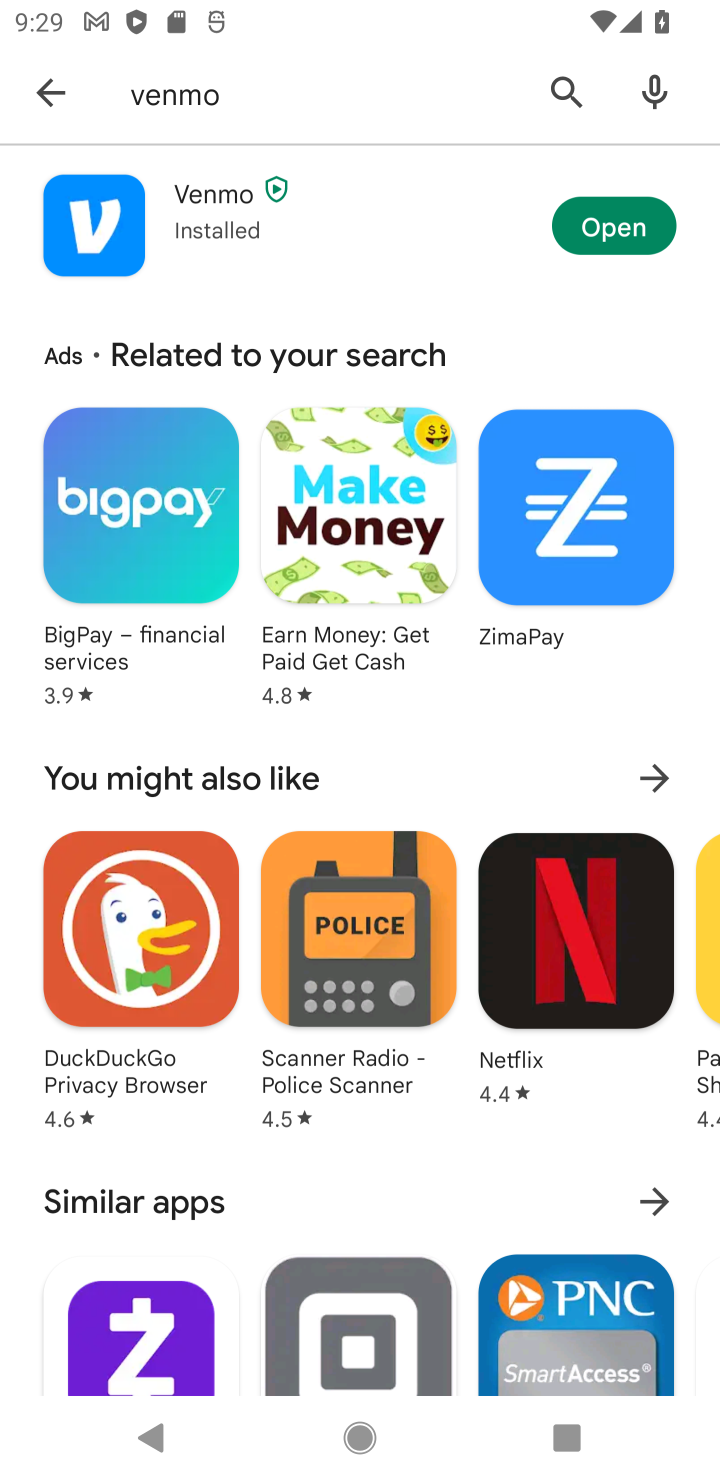
Step 32: click (632, 239)
Your task to perform on an android device: open app "Venmo" Image 33: 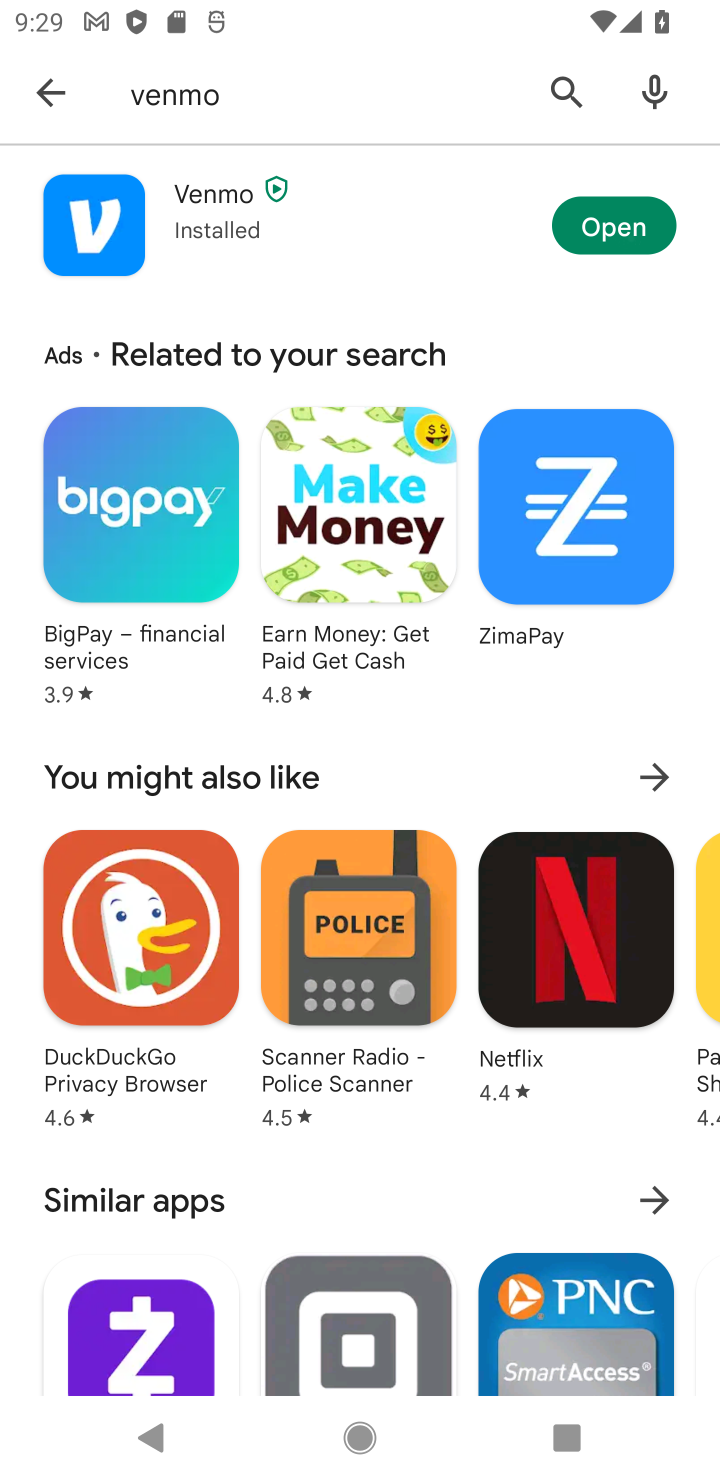
Step 33: click (636, 228)
Your task to perform on an android device: open app "Venmo" Image 34: 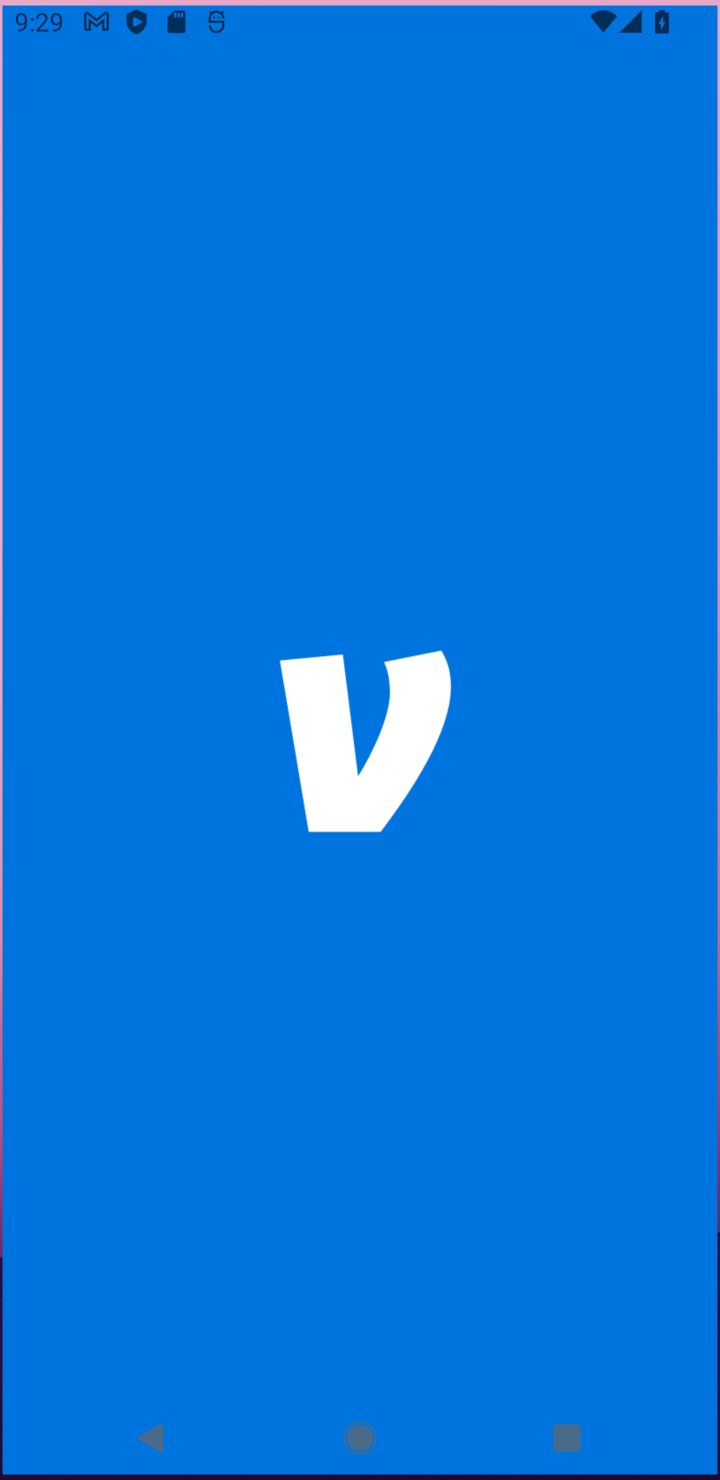
Step 34: click (649, 237)
Your task to perform on an android device: open app "Venmo" Image 35: 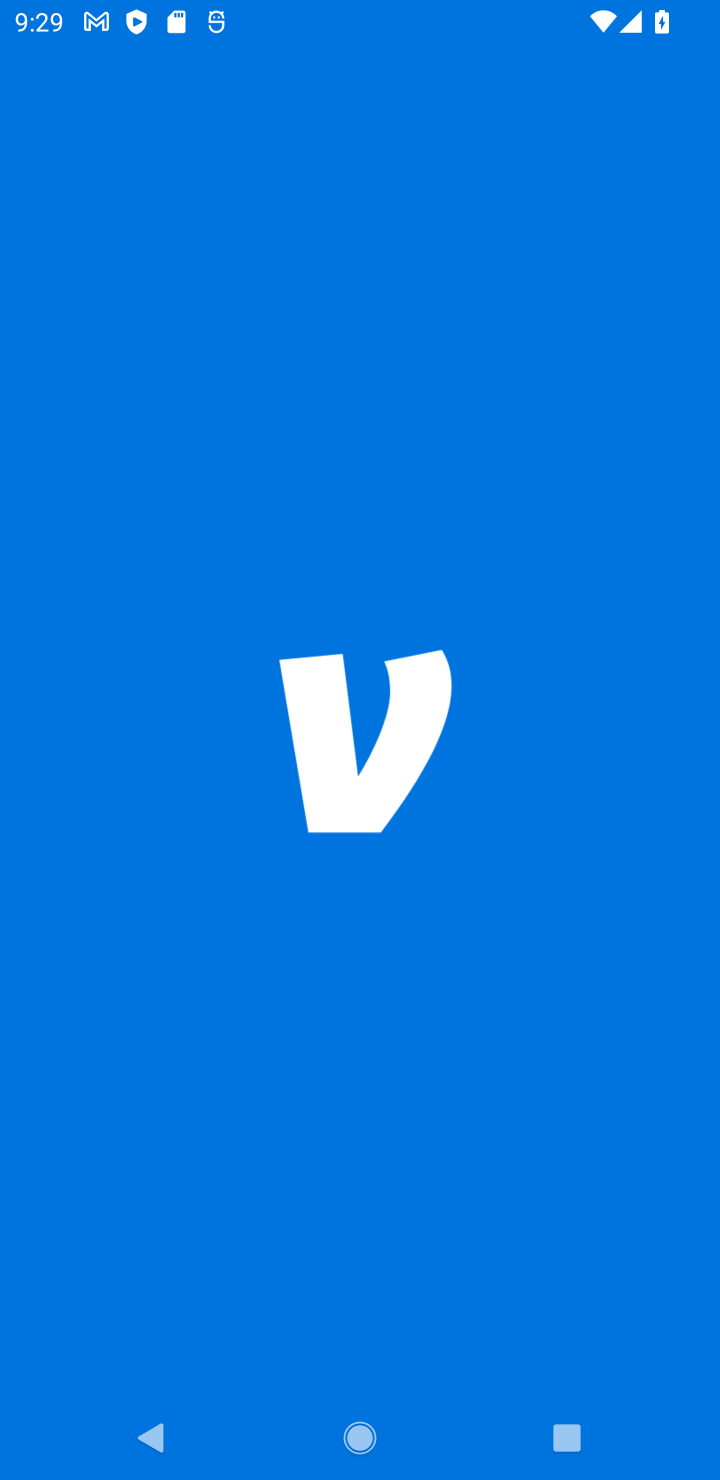
Step 35: task complete